Your task to perform on an android device: What's the weather like in Tokyo? Image 0: 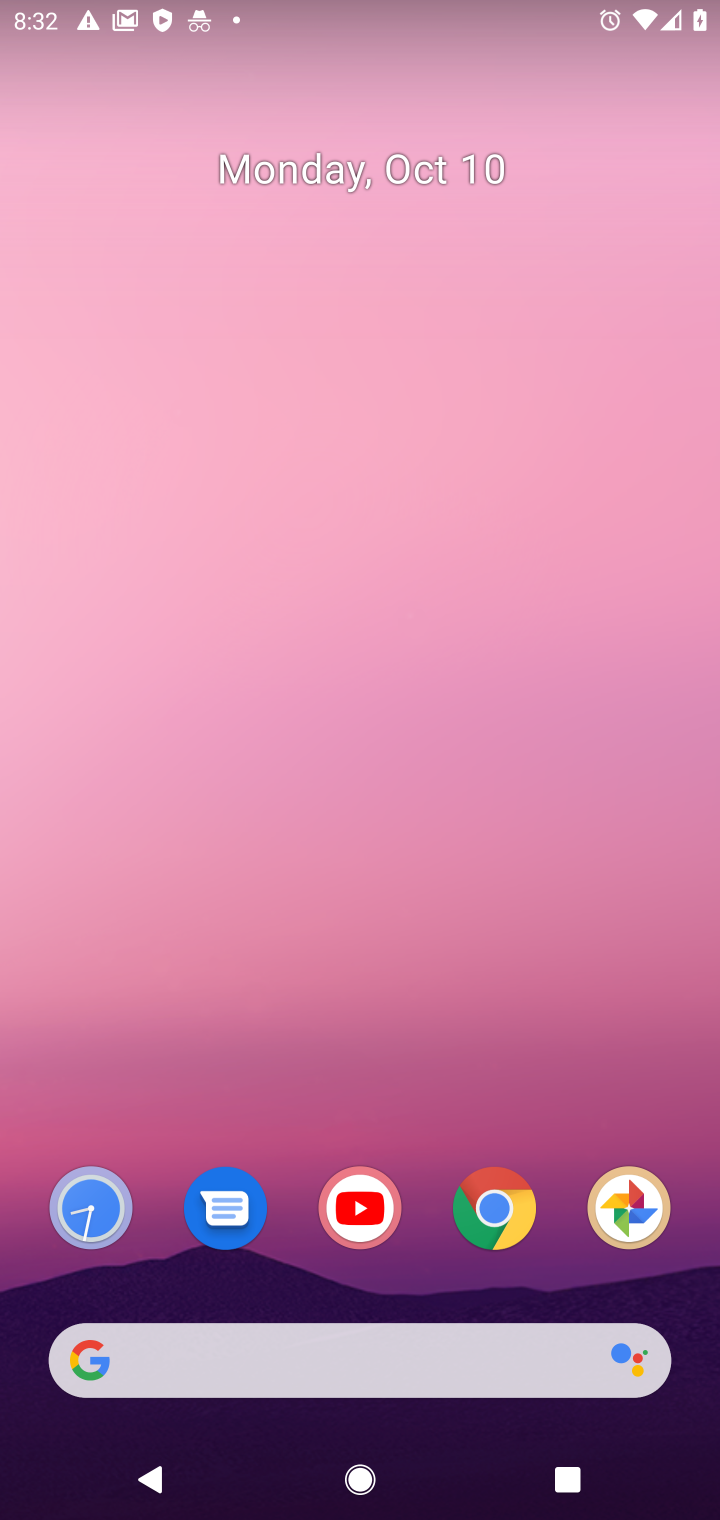
Step 0: press home button
Your task to perform on an android device: What's the weather like in Tokyo? Image 1: 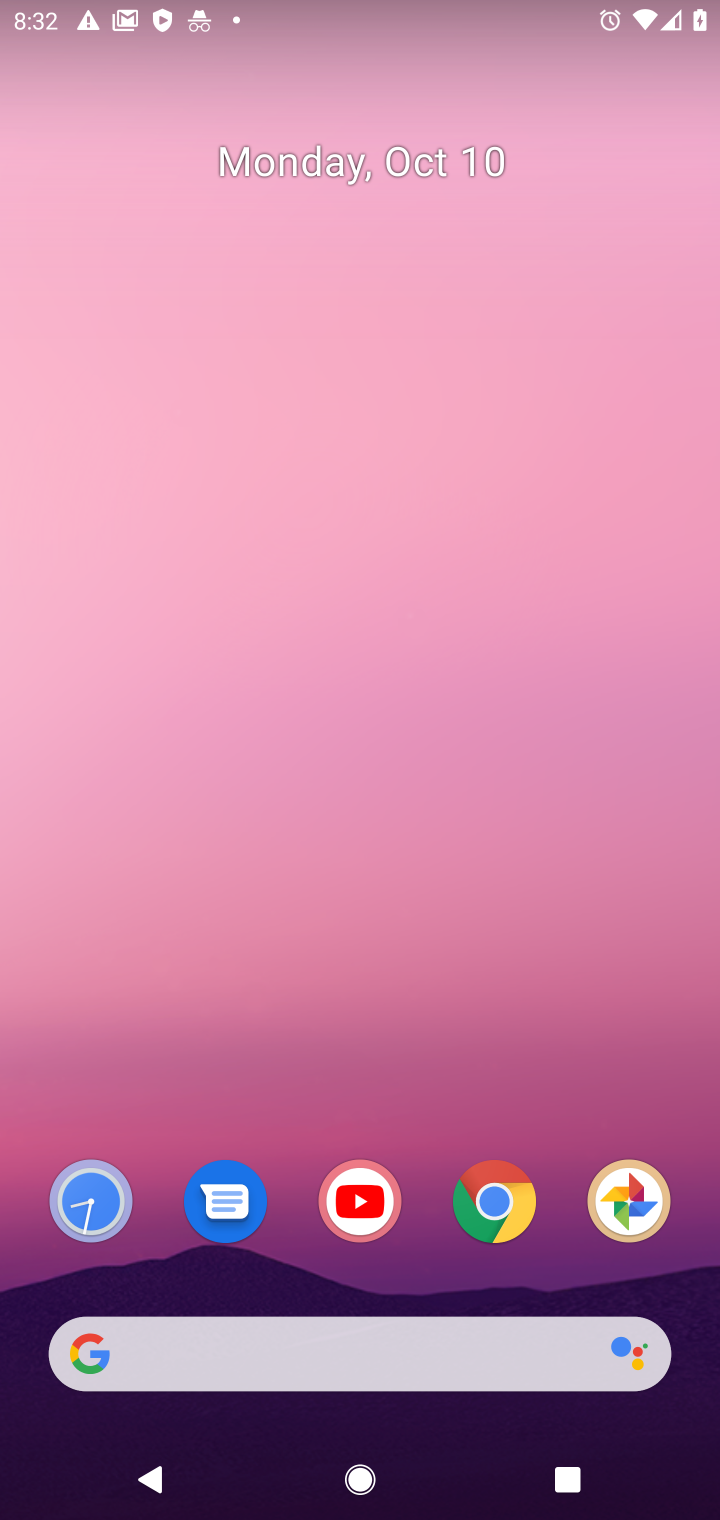
Step 1: drag from (418, 734) to (482, 11)
Your task to perform on an android device: What's the weather like in Tokyo? Image 2: 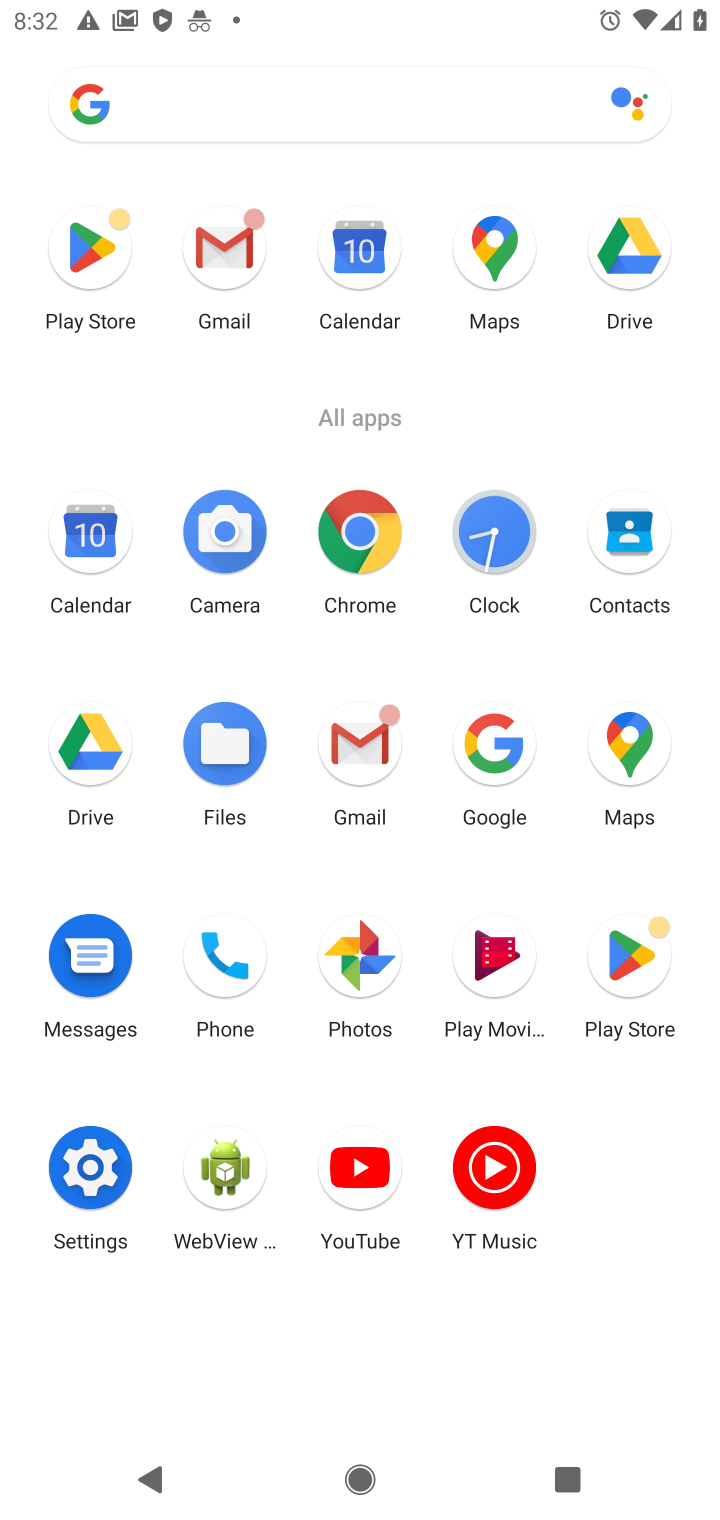
Step 2: click (643, 953)
Your task to perform on an android device: What's the weather like in Tokyo? Image 3: 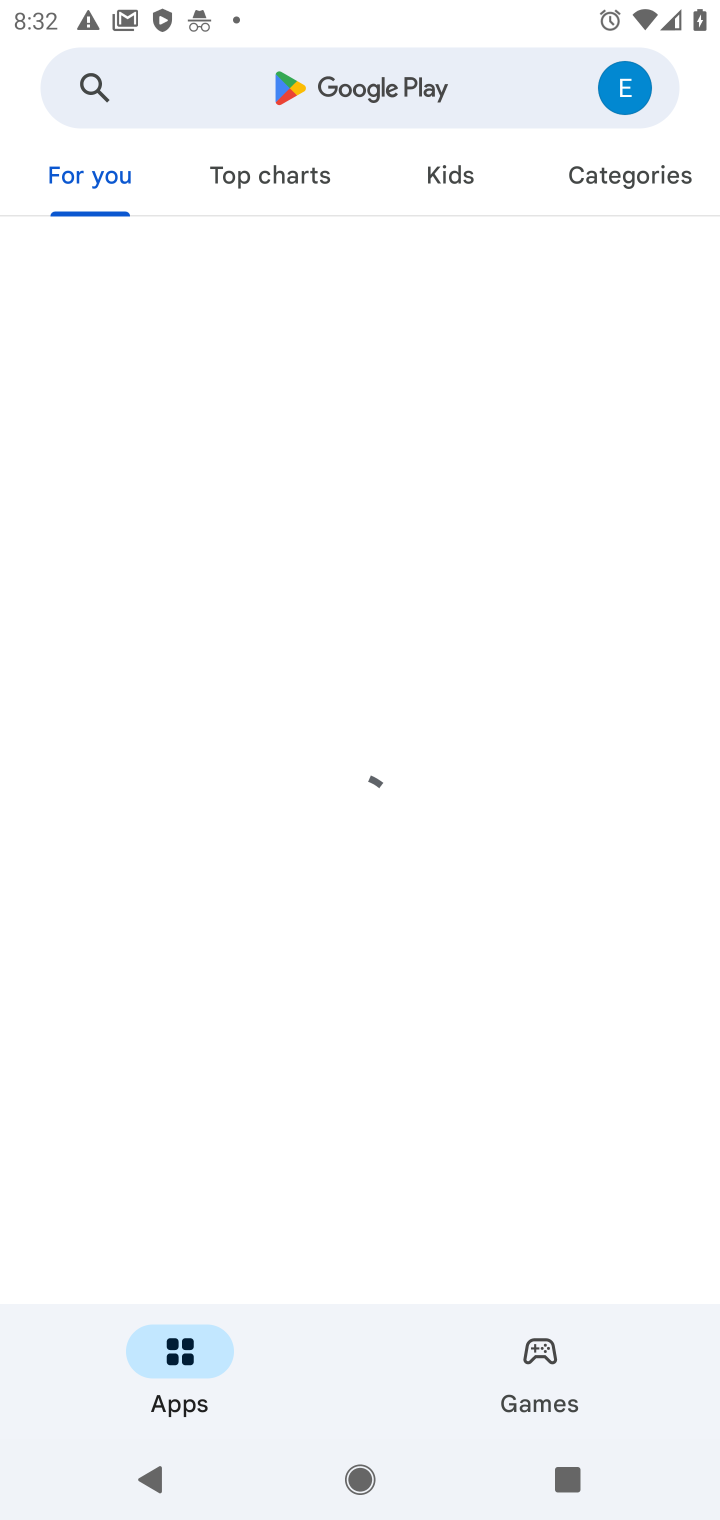
Step 3: click (373, 104)
Your task to perform on an android device: What's the weather like in Tokyo? Image 4: 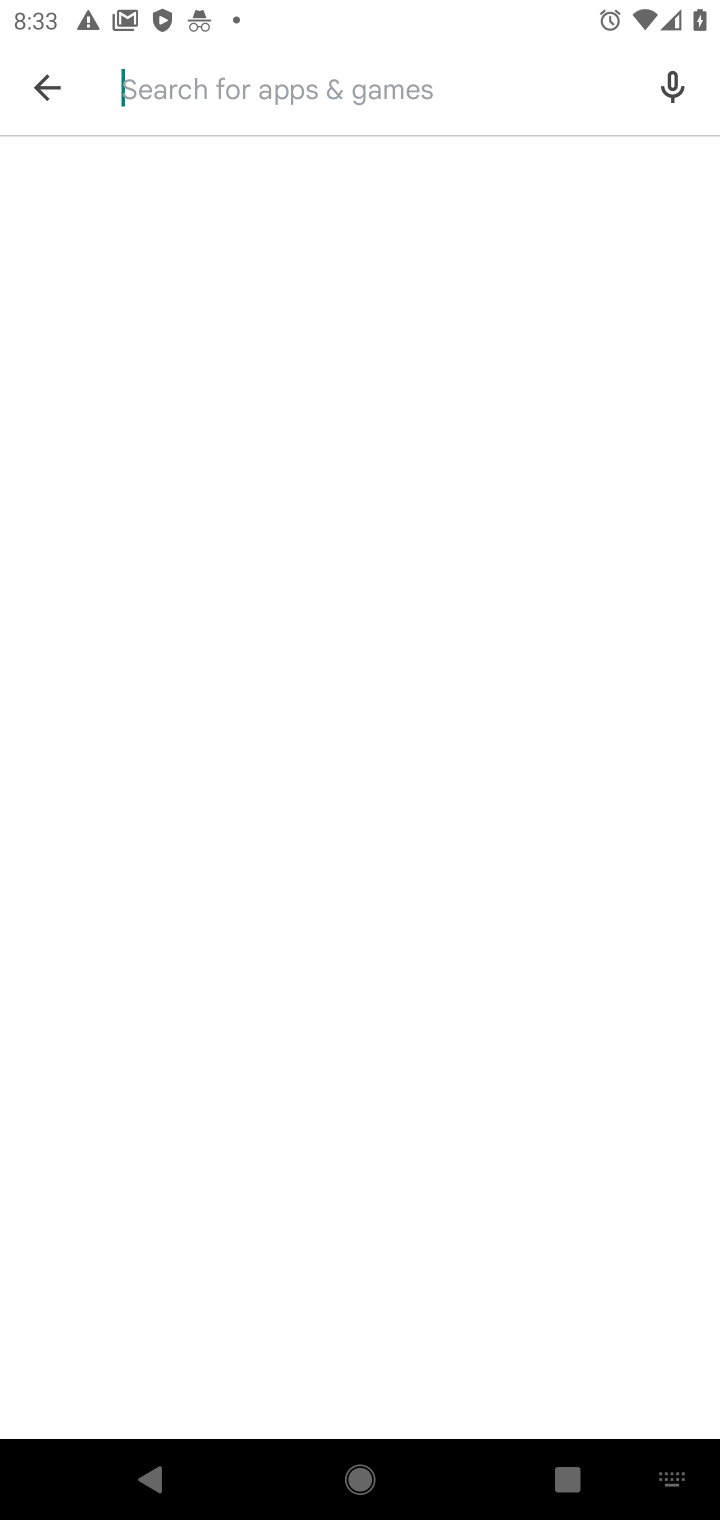
Step 4: type "calculator"
Your task to perform on an android device: What's the weather like in Tokyo? Image 5: 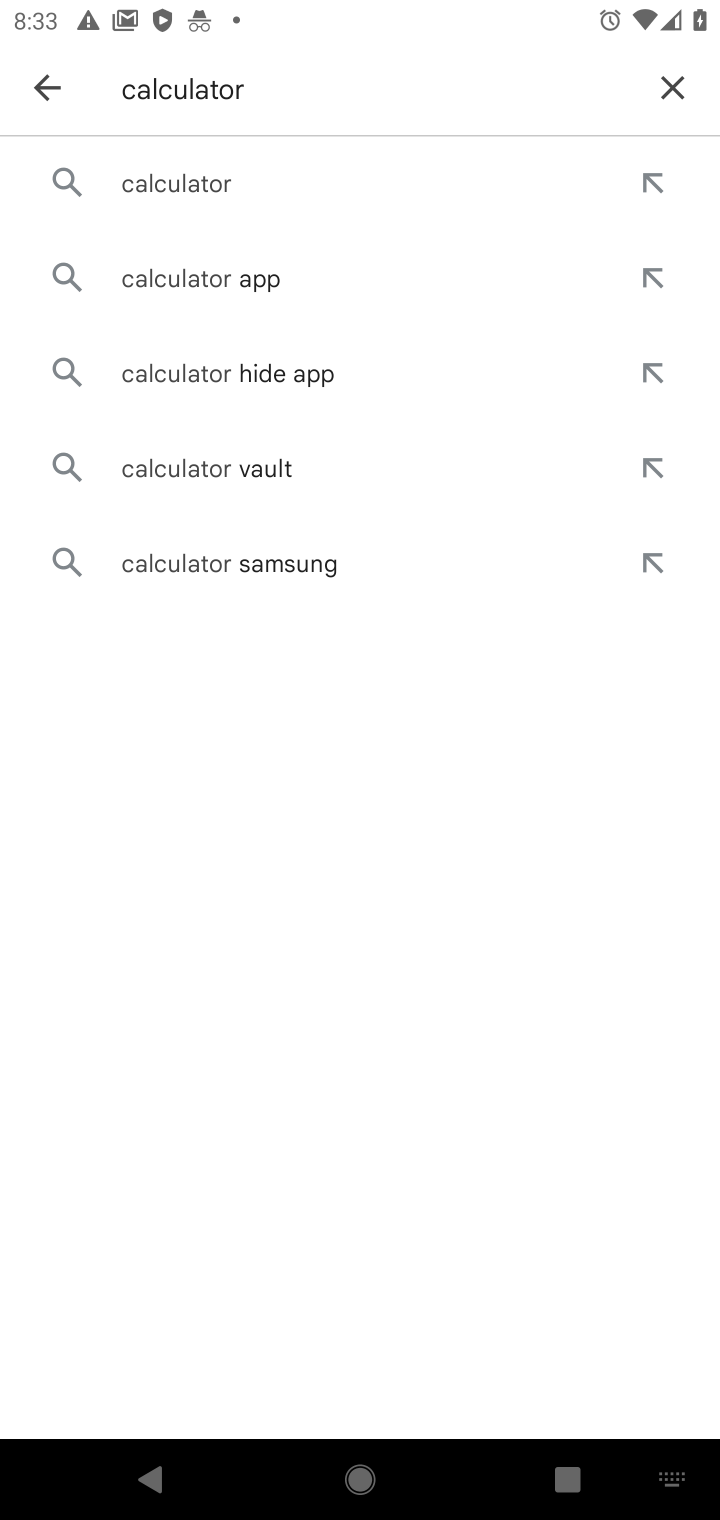
Step 5: type ""
Your task to perform on an android device: What's the weather like in Tokyo? Image 6: 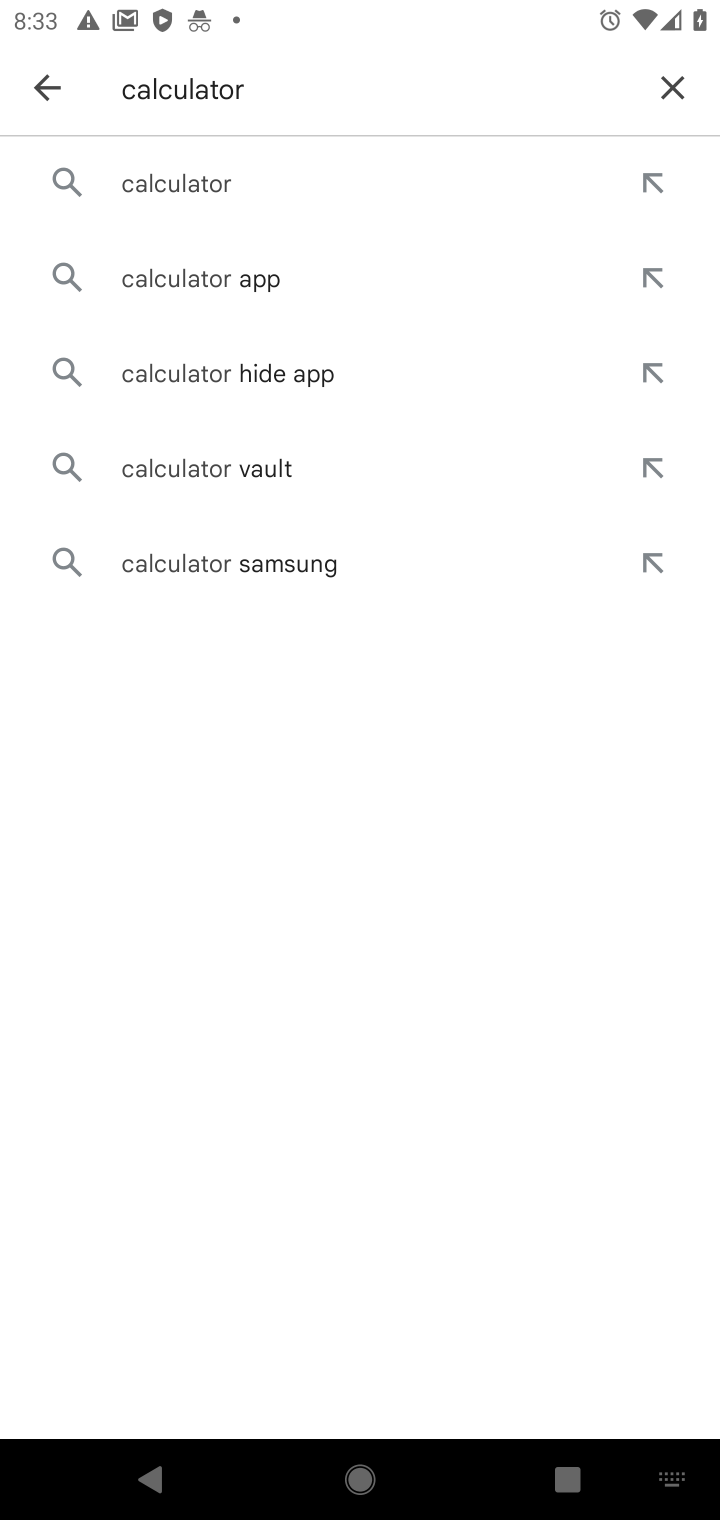
Step 6: press home button
Your task to perform on an android device: What's the weather like in Tokyo? Image 7: 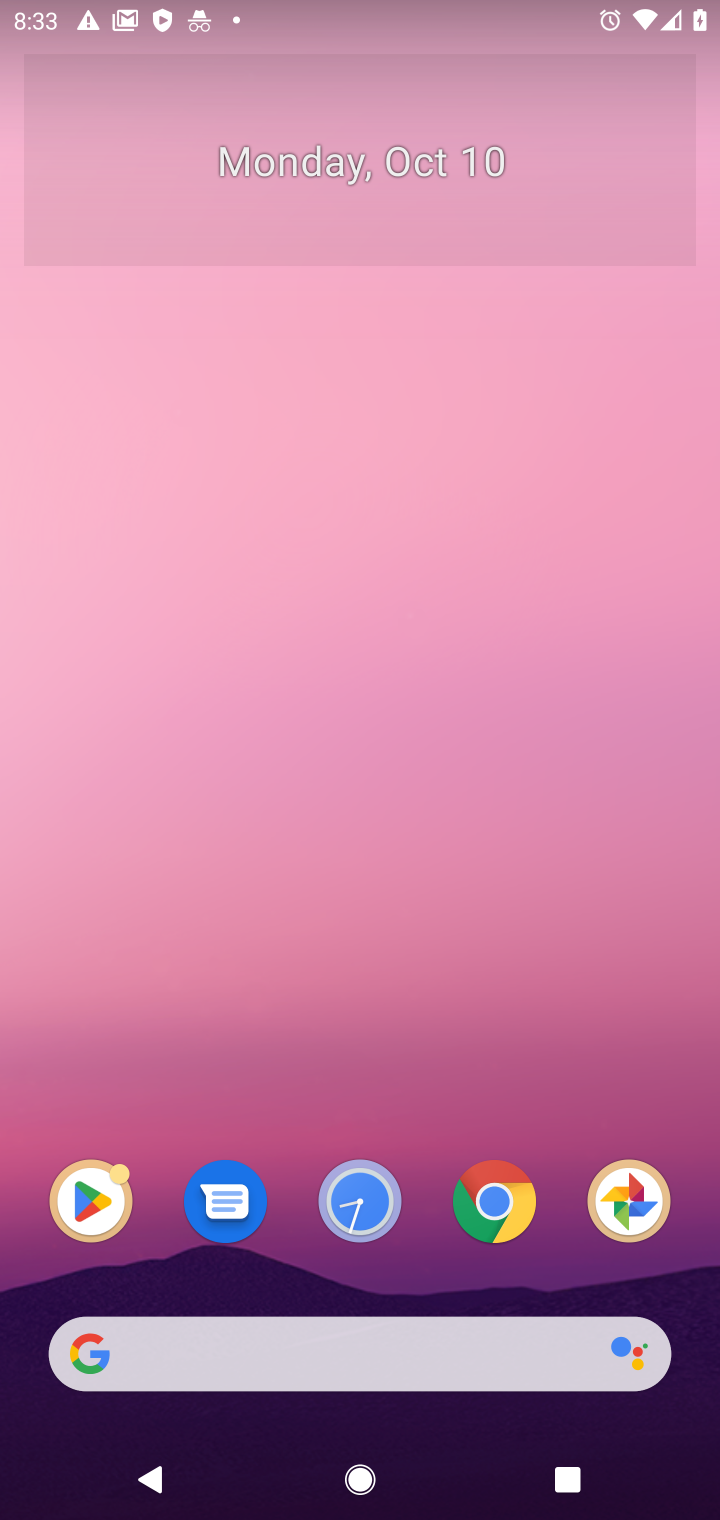
Step 7: click (484, 1188)
Your task to perform on an android device: What's the weather like in Tokyo? Image 8: 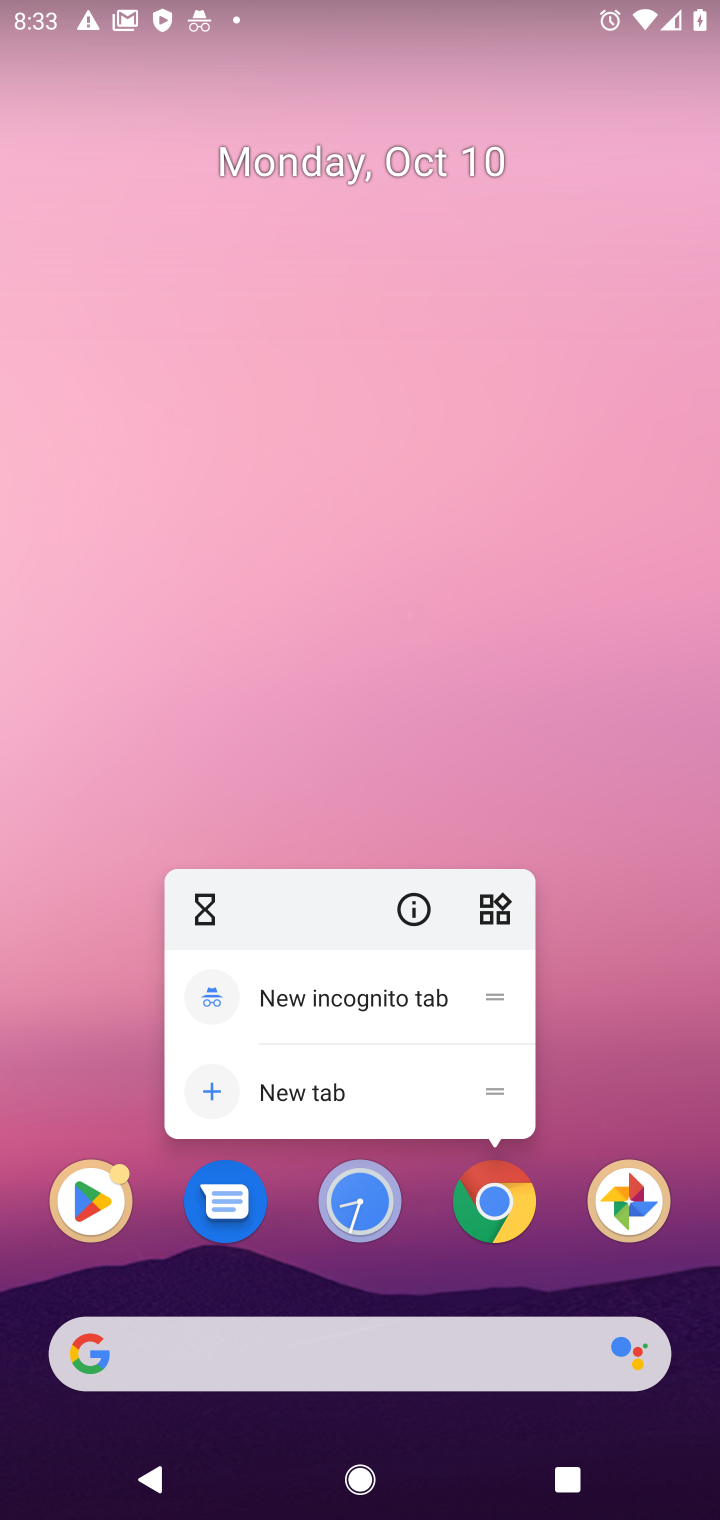
Step 8: click (482, 1244)
Your task to perform on an android device: What's the weather like in Tokyo? Image 9: 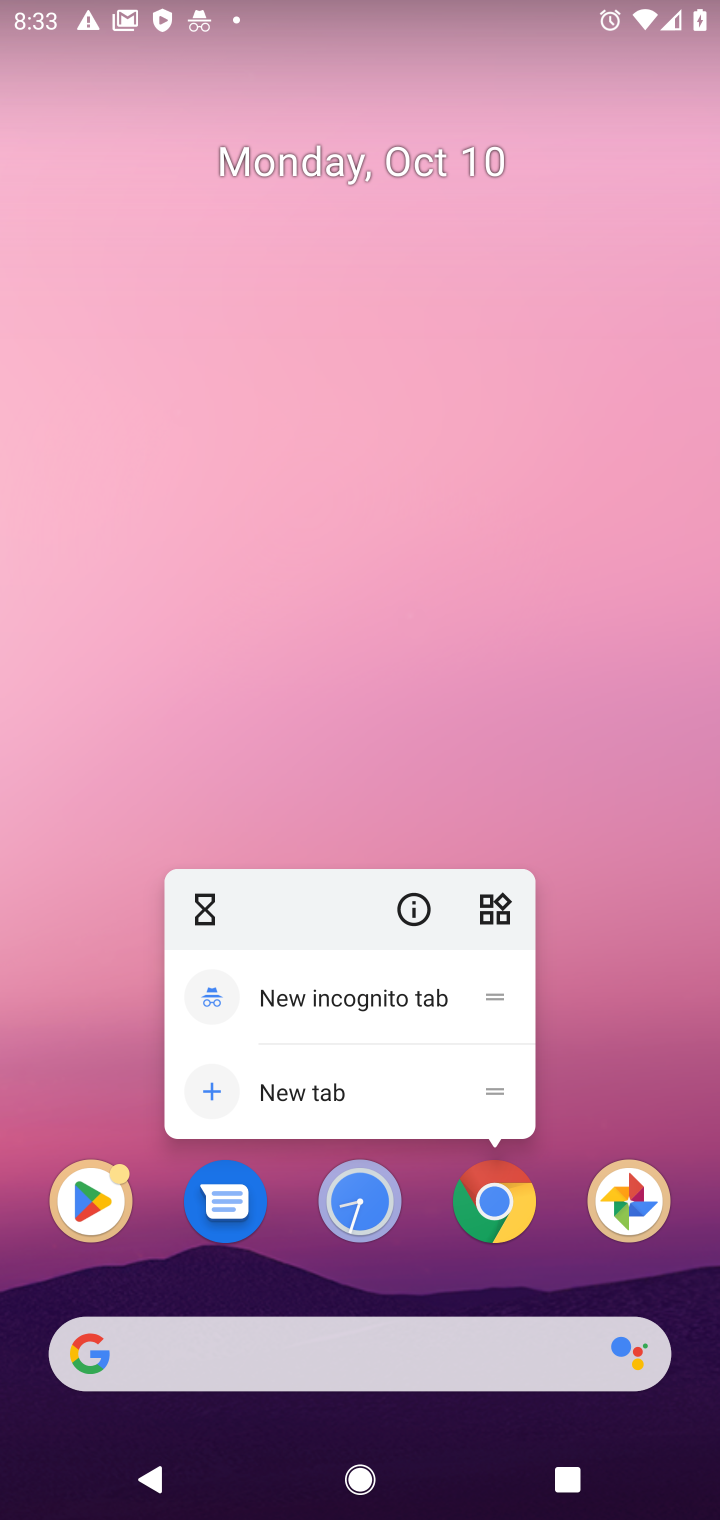
Step 9: click (364, 1365)
Your task to perform on an android device: What's the weather like in Tokyo? Image 10: 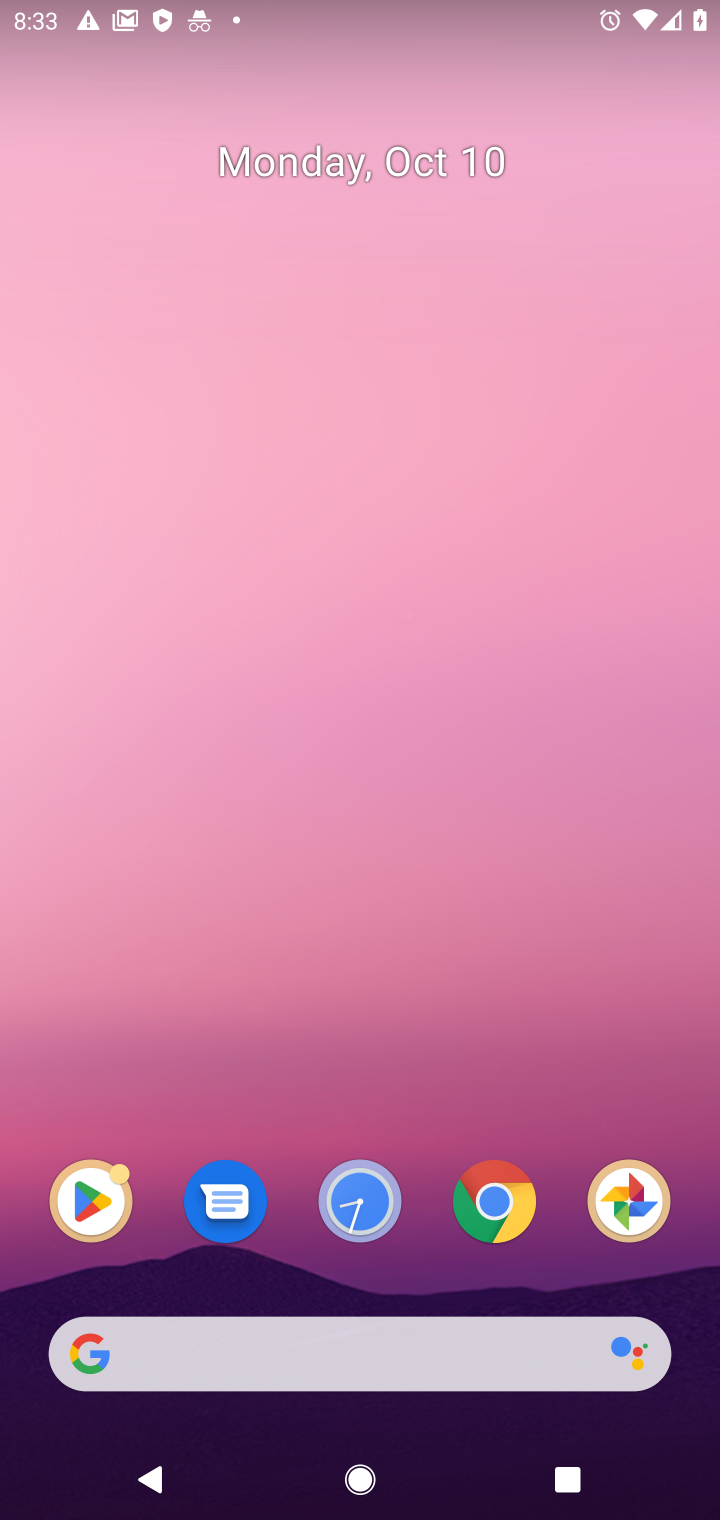
Step 10: click (504, 1204)
Your task to perform on an android device: What's the weather like in Tokyo? Image 11: 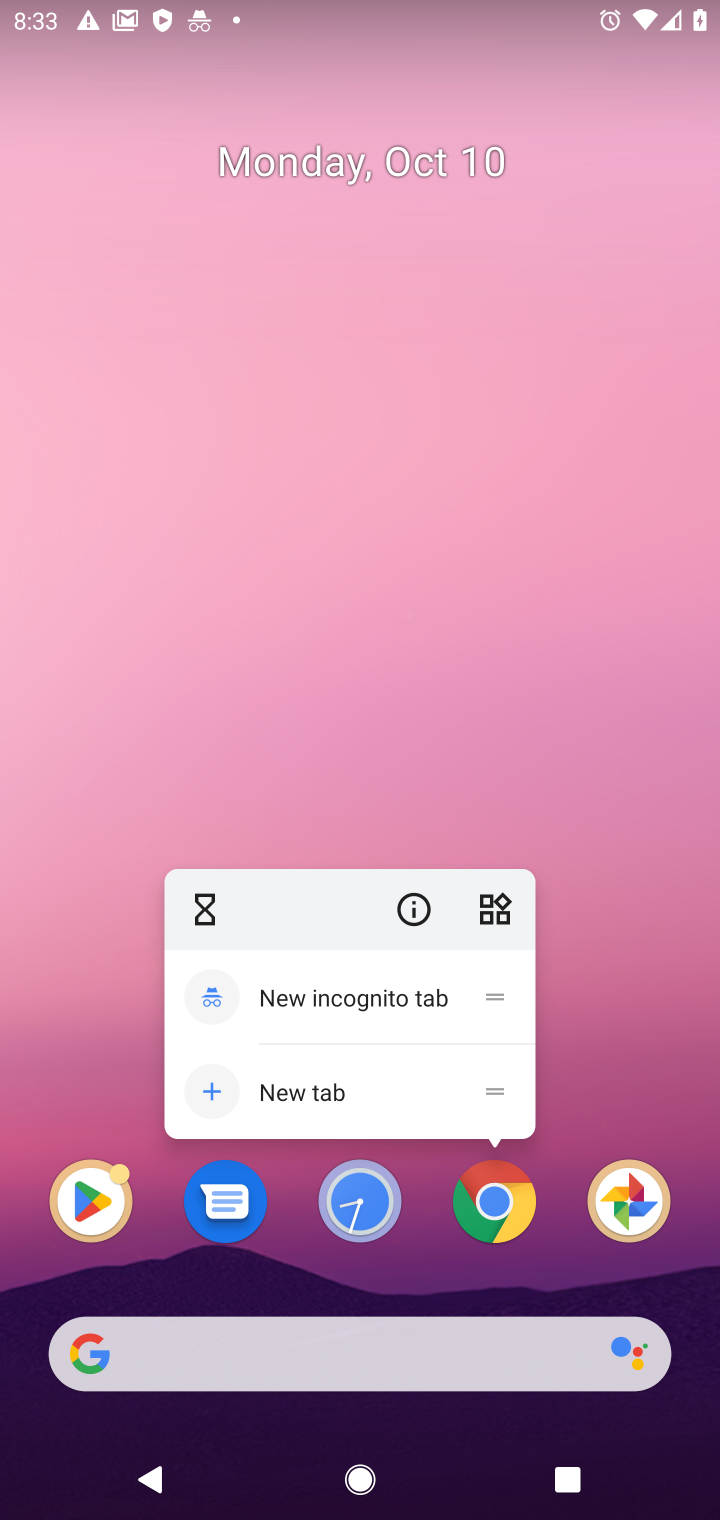
Step 11: click (314, 1085)
Your task to perform on an android device: What's the weather like in Tokyo? Image 12: 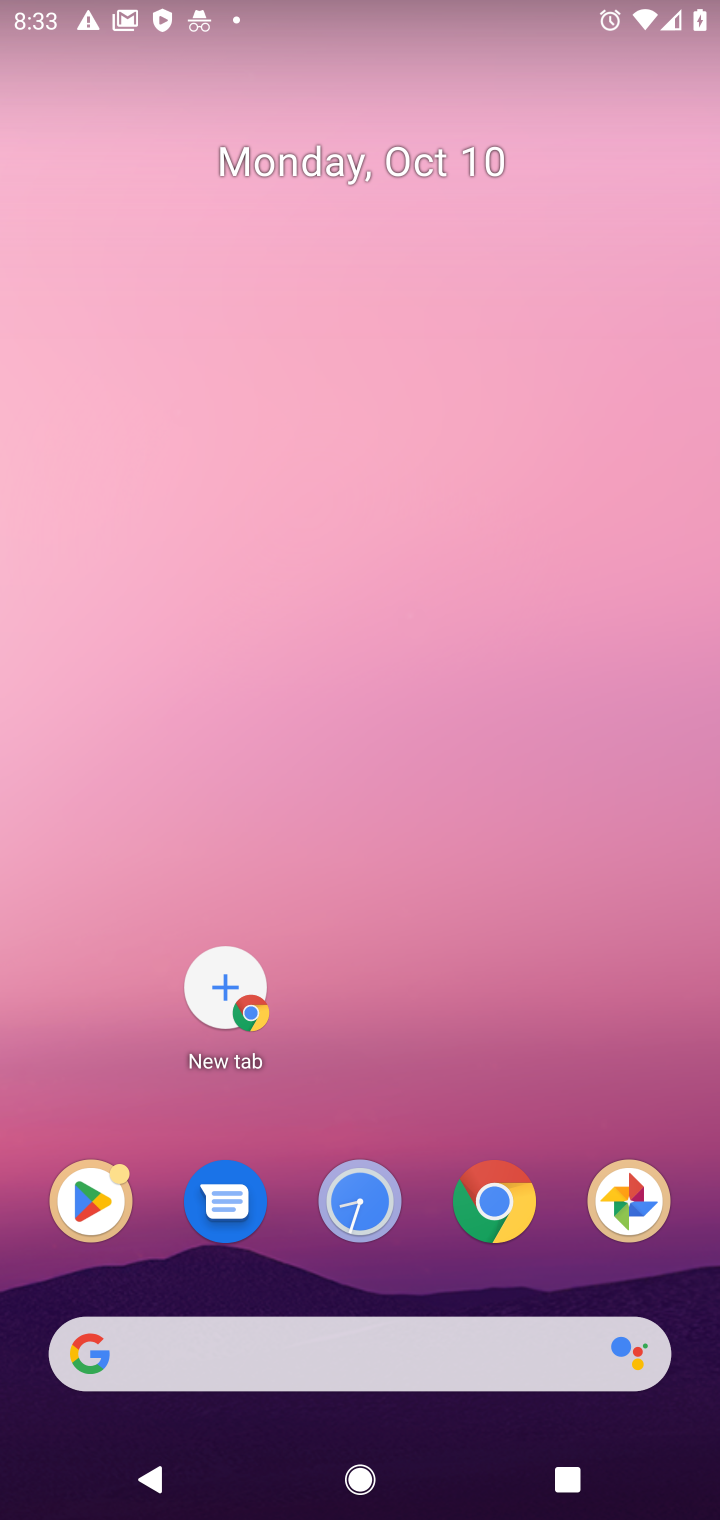
Step 12: click (250, 1018)
Your task to perform on an android device: What's the weather like in Tokyo? Image 13: 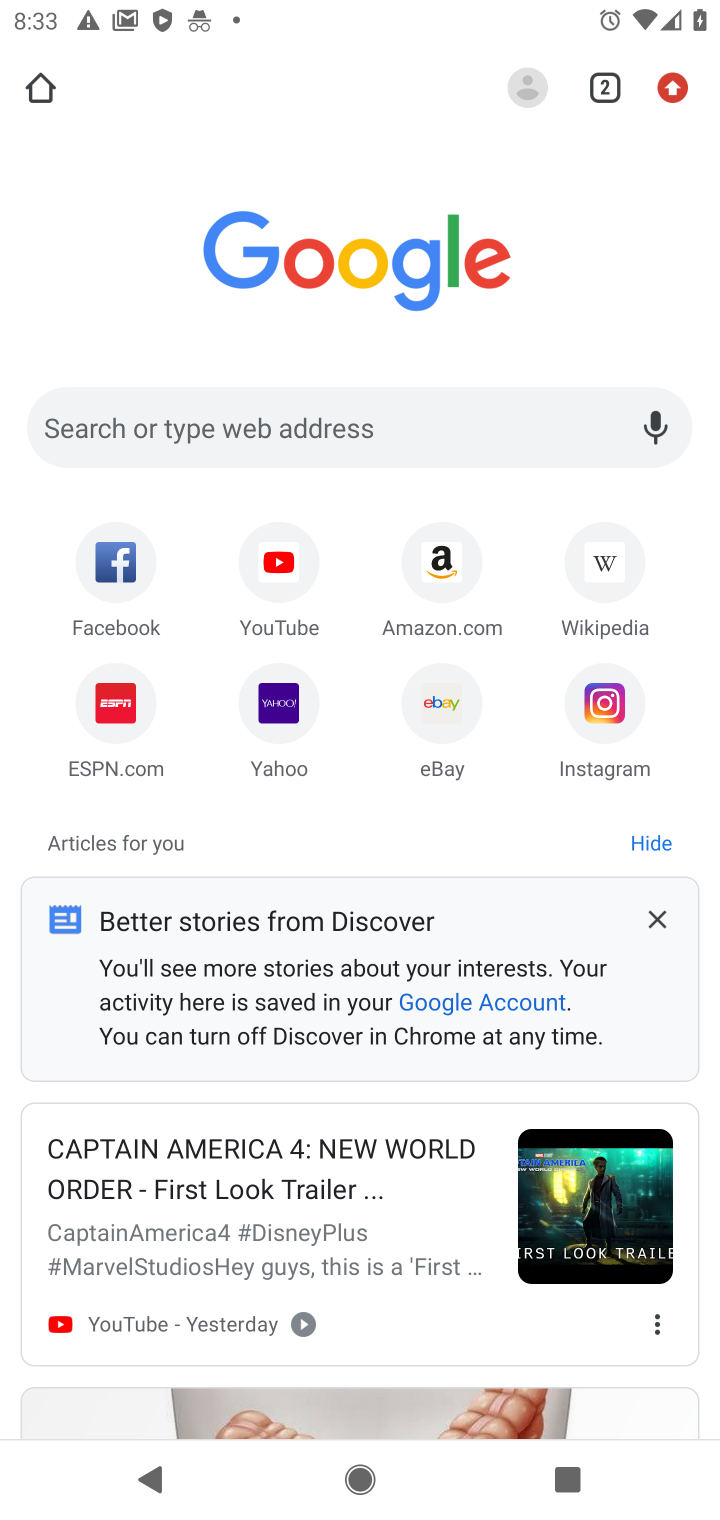
Step 13: click (350, 422)
Your task to perform on an android device: What's the weather like in Tokyo? Image 14: 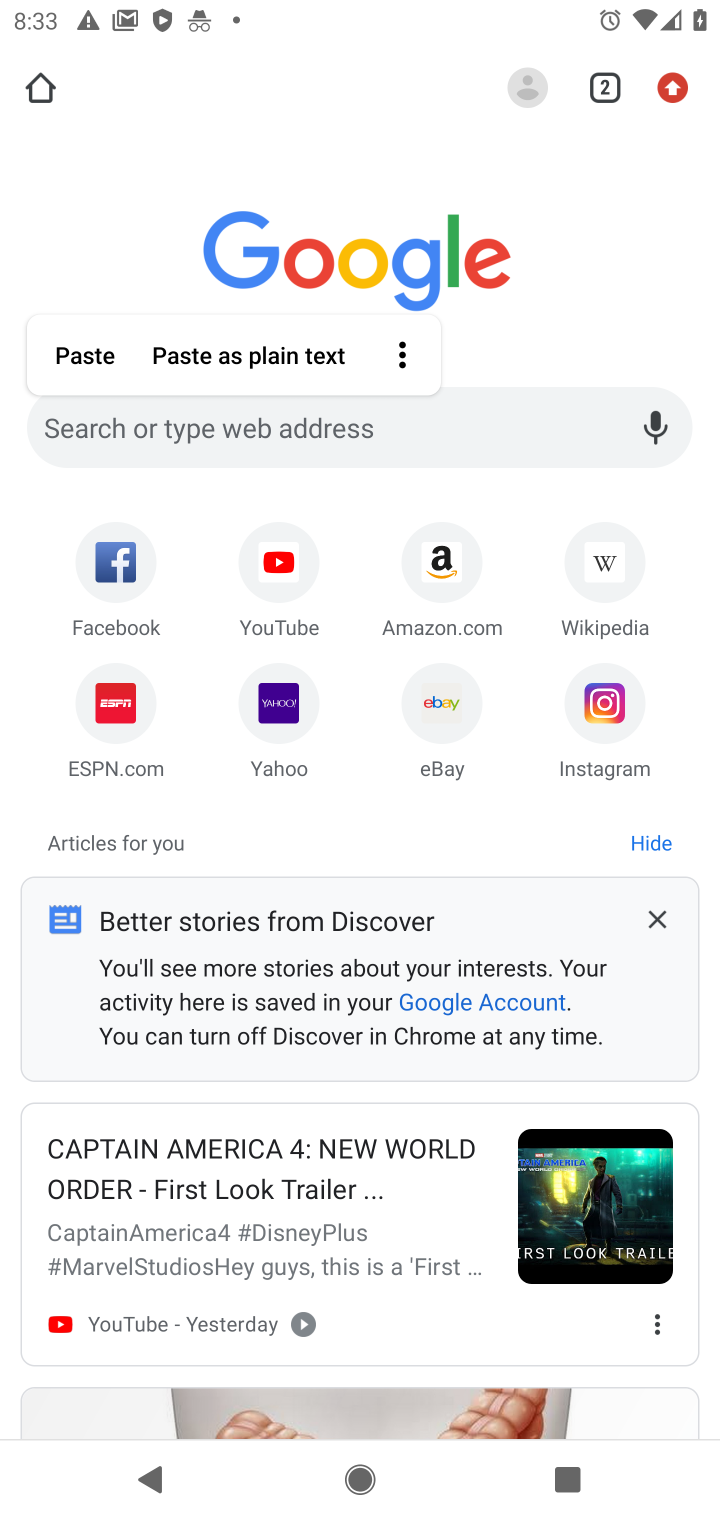
Step 14: click (440, 449)
Your task to perform on an android device: What's the weather like in Tokyo? Image 15: 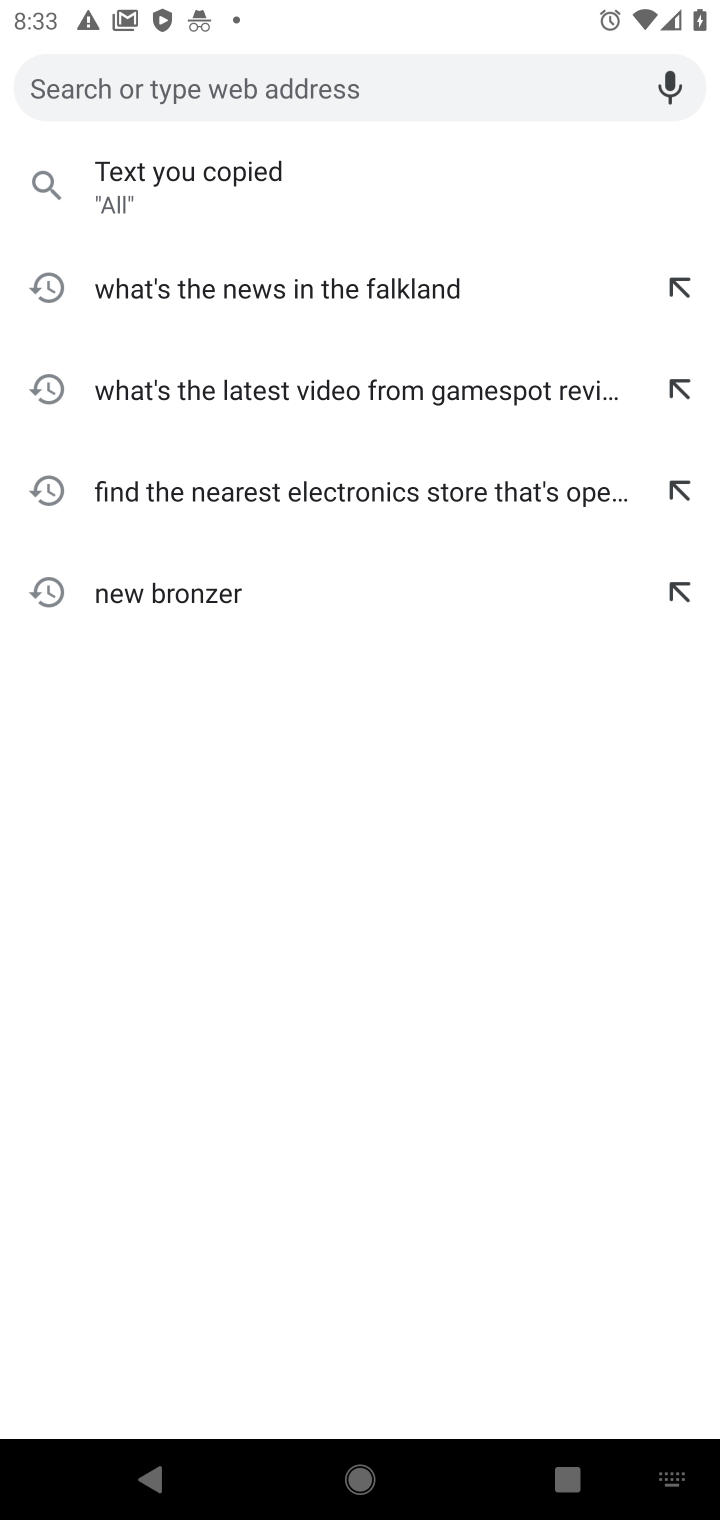
Step 15: type "What's the weather like in Tokyo?"
Your task to perform on an android device: What's the weather like in Tokyo? Image 16: 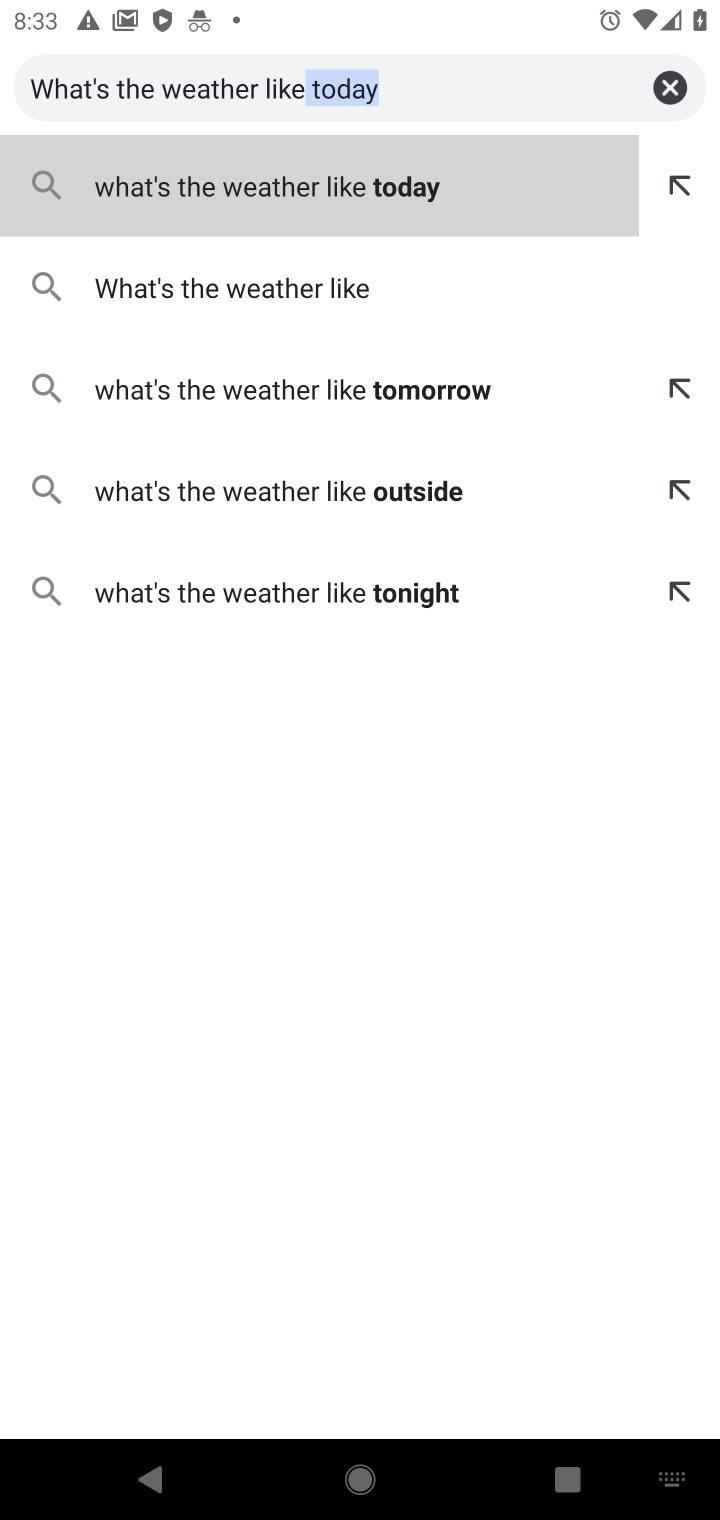
Step 16: type ""
Your task to perform on an android device: What's the weather like in Tokyo? Image 17: 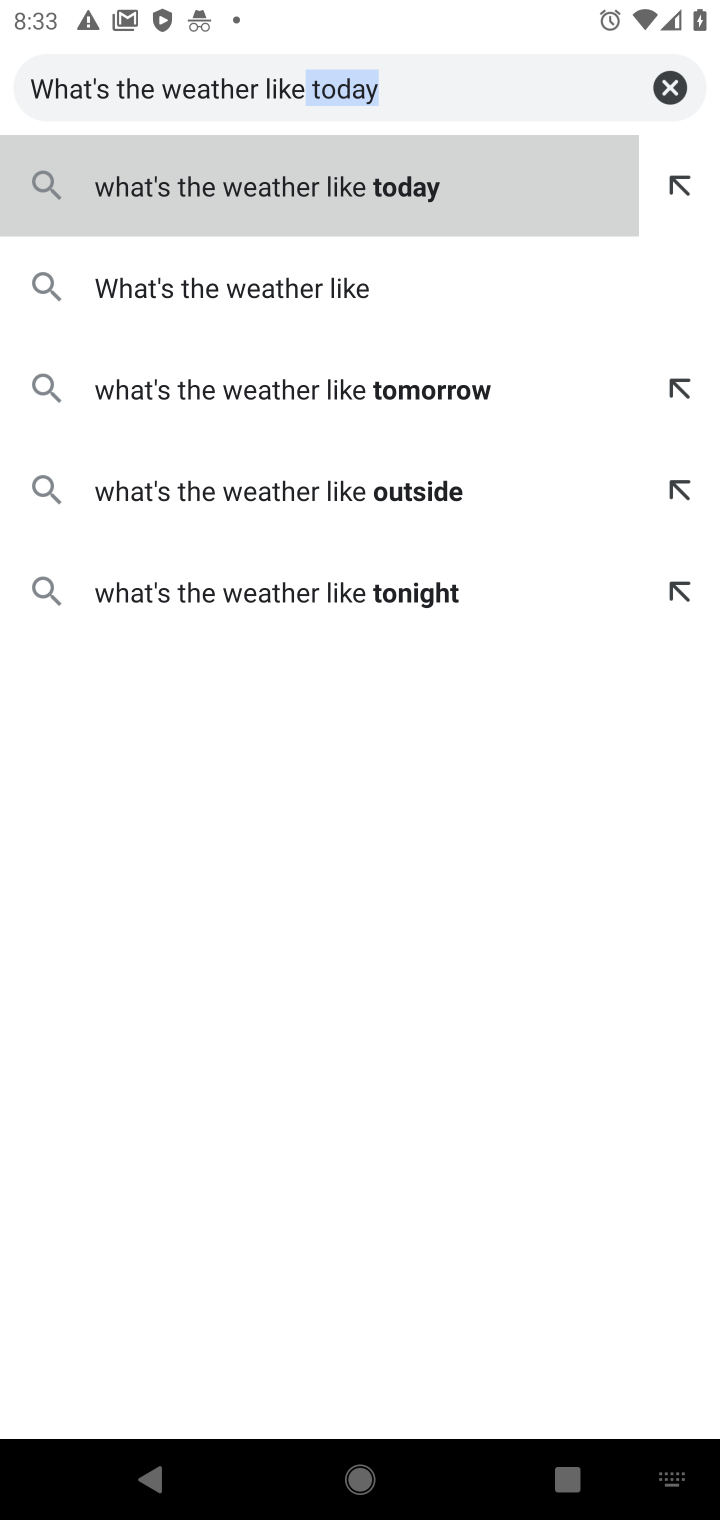
Step 17: press enter
Your task to perform on an android device: What's the weather like in Tokyo? Image 18: 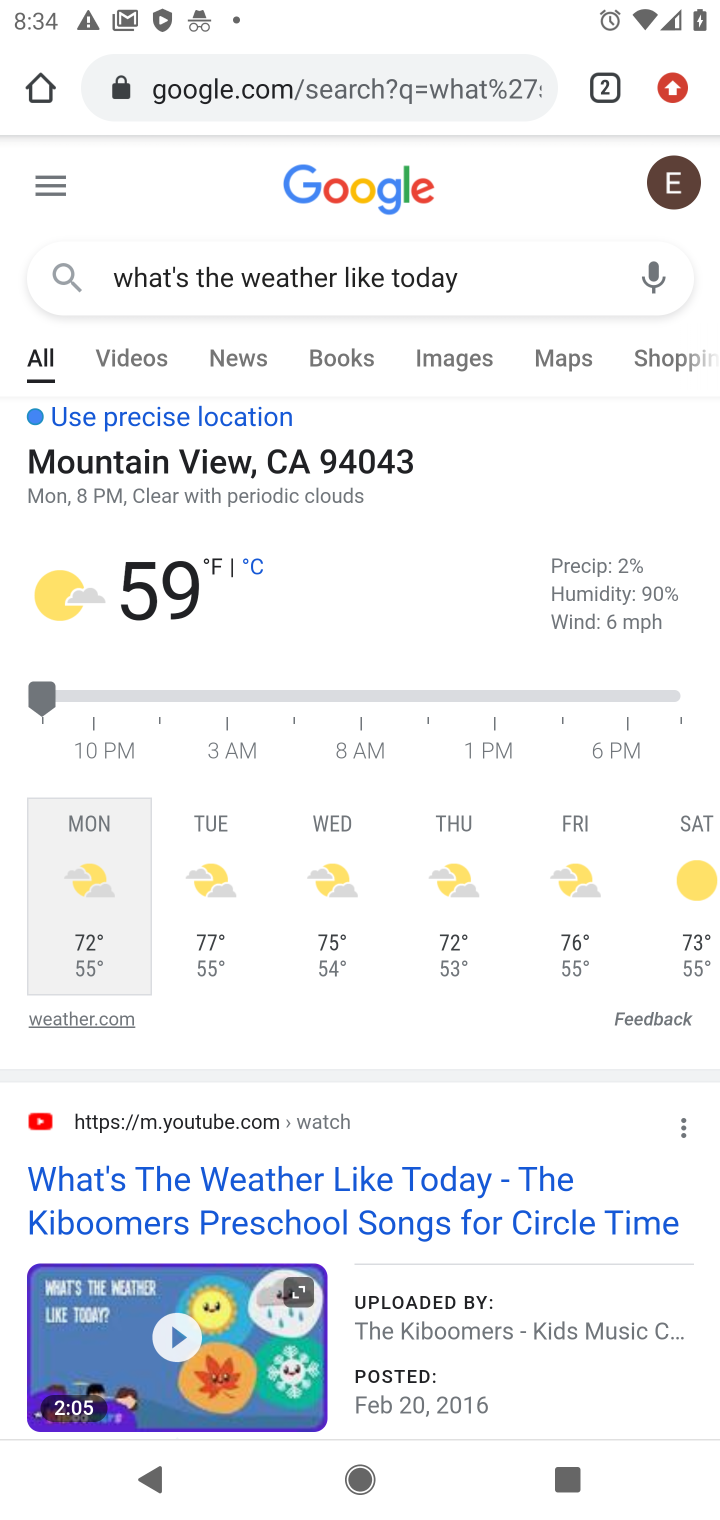
Step 18: drag from (432, 190) to (454, 101)
Your task to perform on an android device: What's the weather like in Tokyo? Image 19: 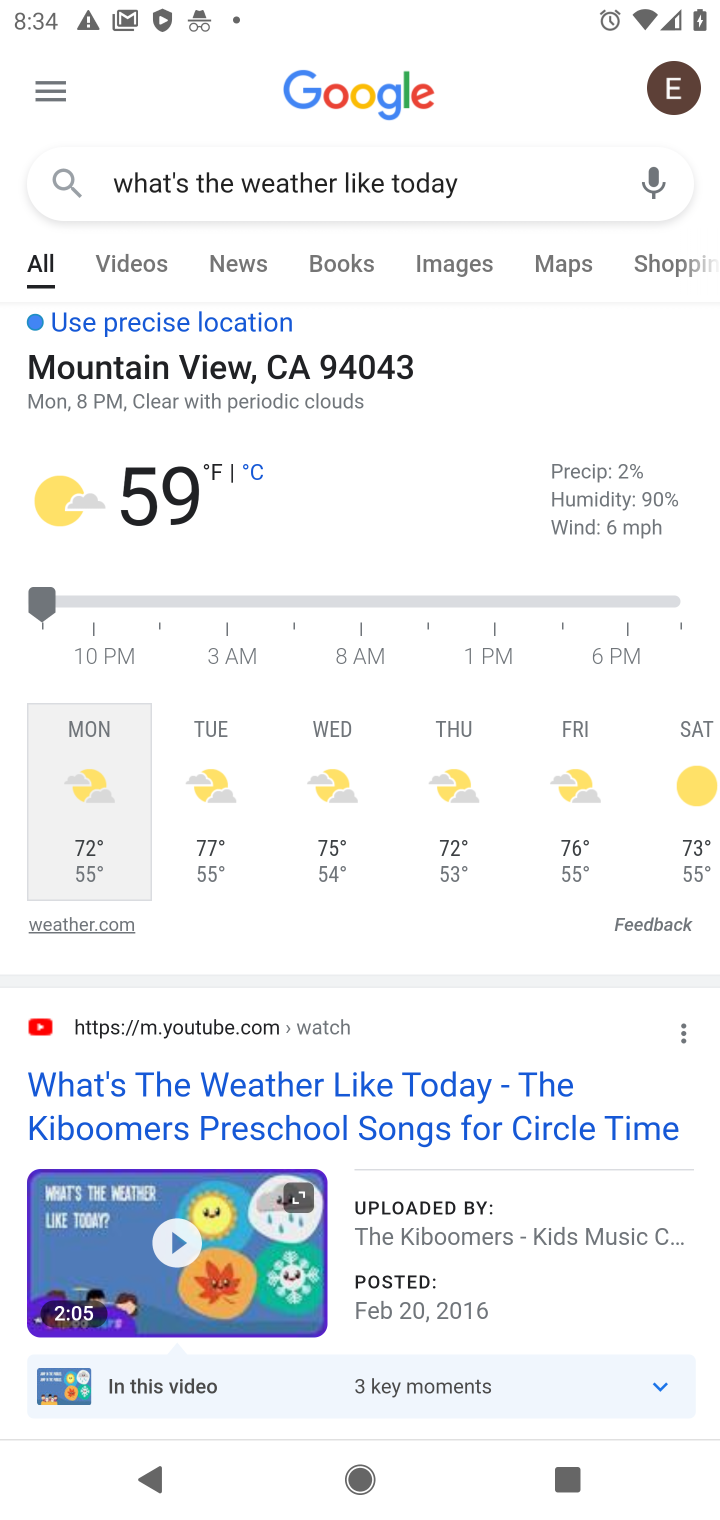
Step 19: drag from (293, 1218) to (270, 287)
Your task to perform on an android device: What's the weather like in Tokyo? Image 20: 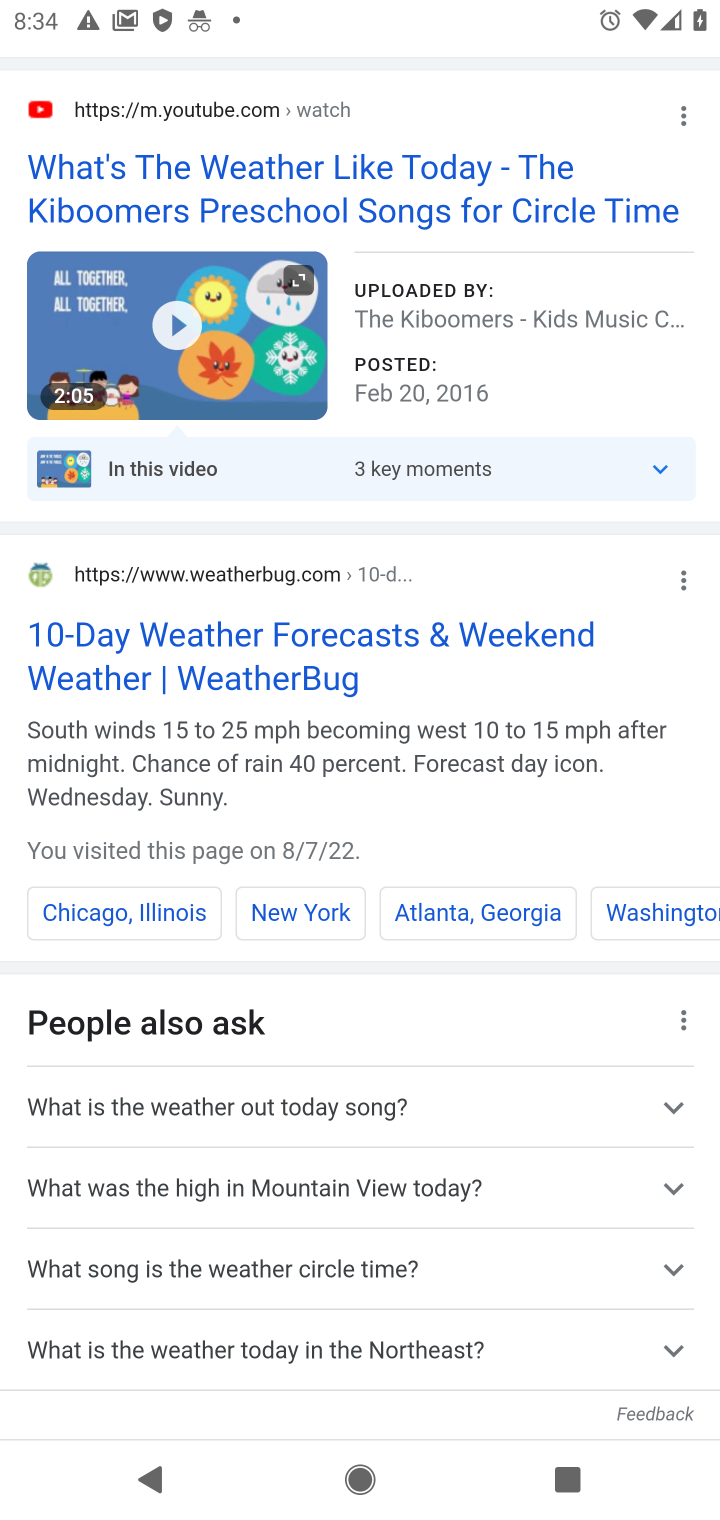
Step 20: drag from (287, 763) to (411, 121)
Your task to perform on an android device: What's the weather like in Tokyo? Image 21: 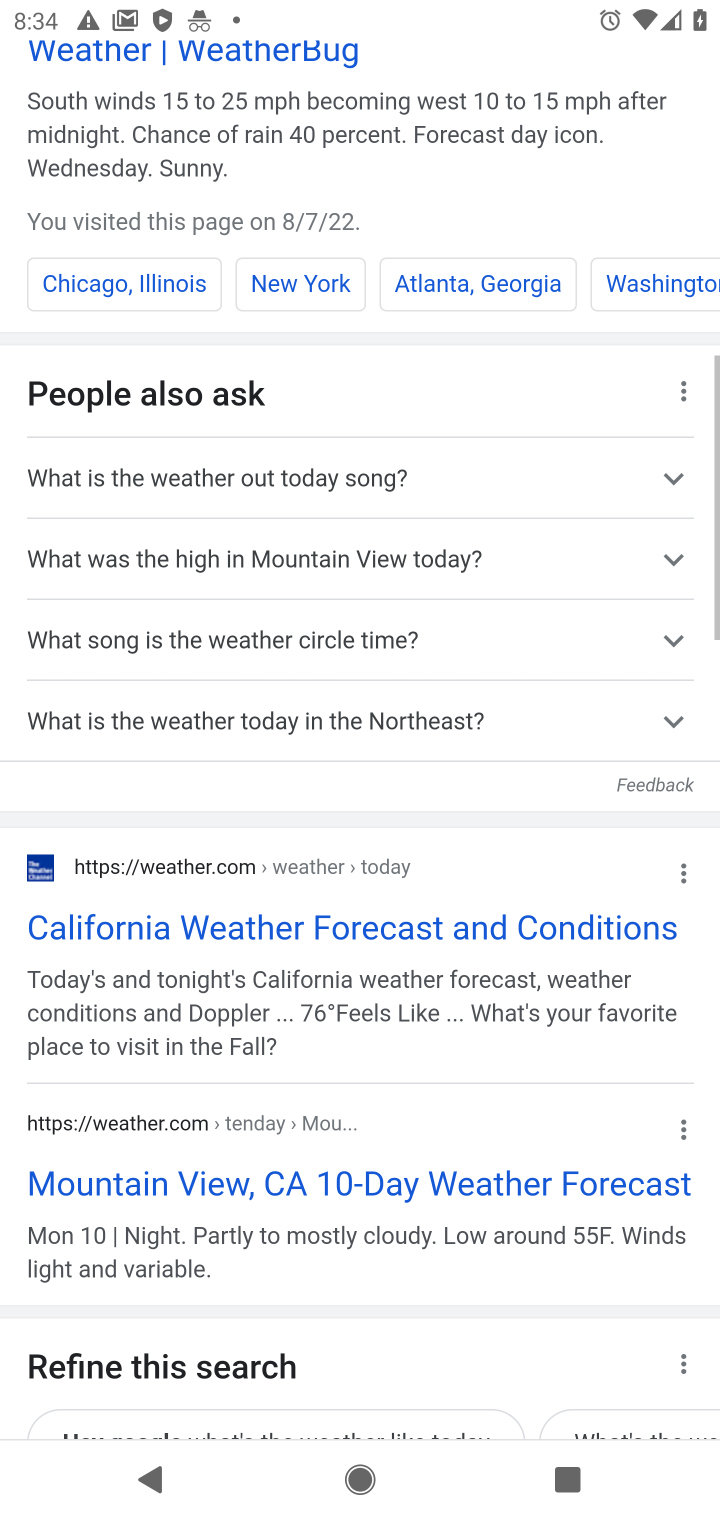
Step 21: drag from (439, 1181) to (454, 236)
Your task to perform on an android device: What's the weather like in Tokyo? Image 22: 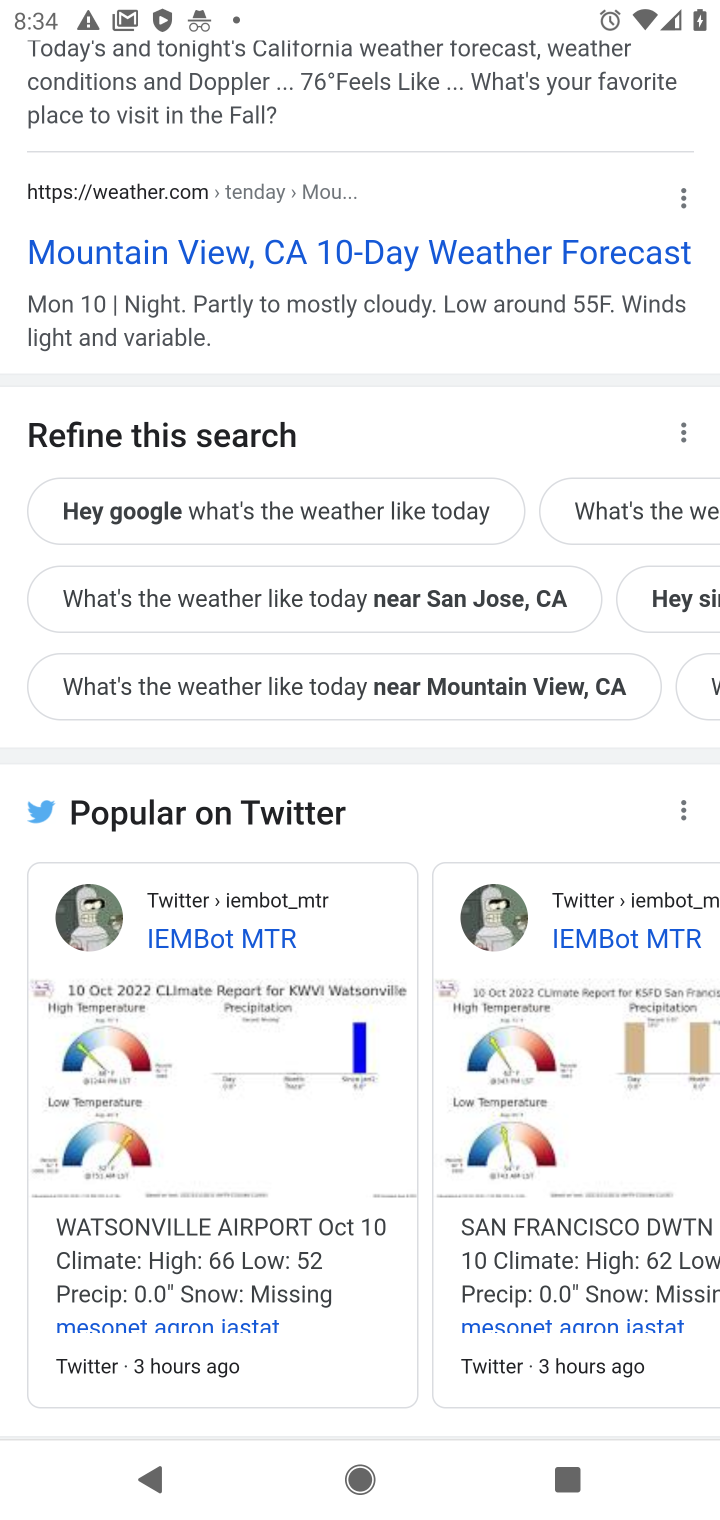
Step 22: drag from (524, 1140) to (498, 403)
Your task to perform on an android device: What's the weather like in Tokyo? Image 23: 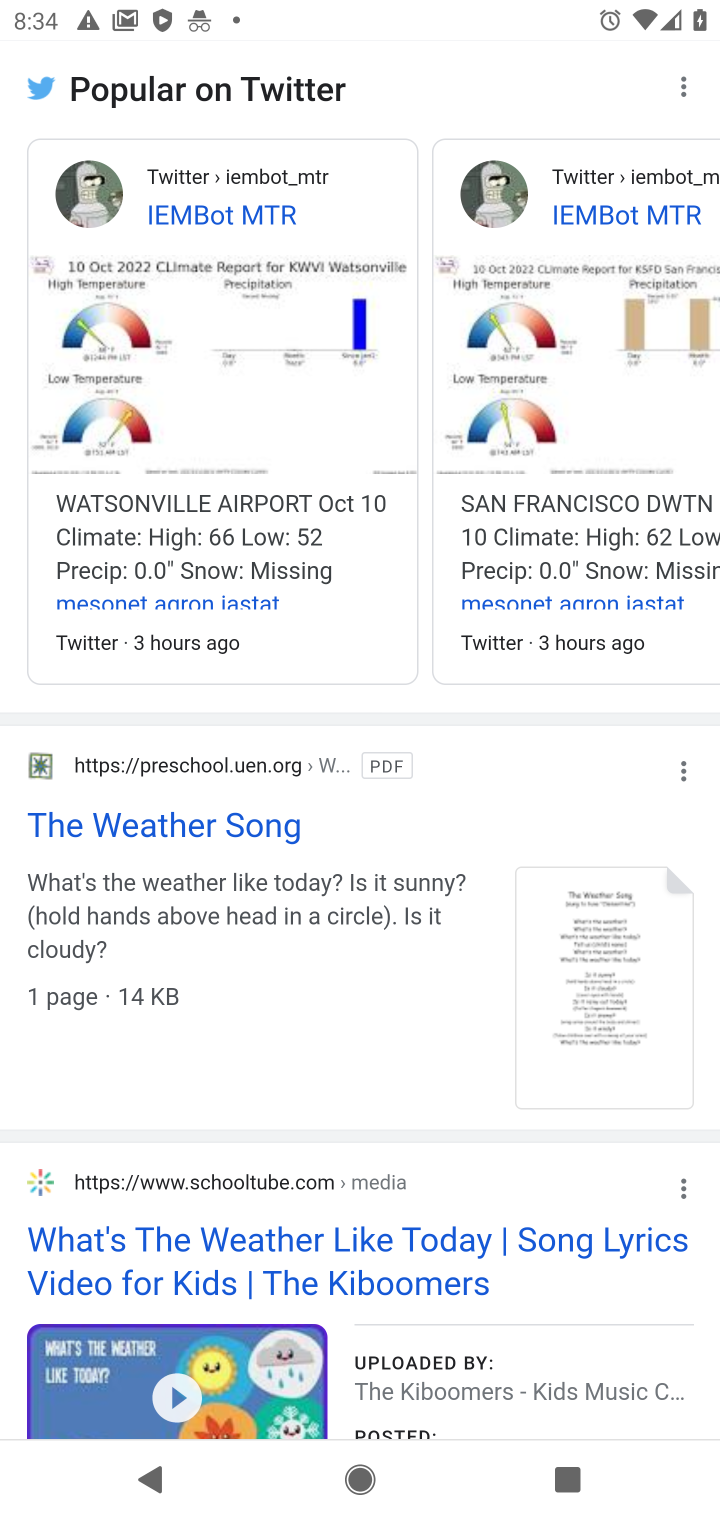
Step 23: drag from (382, 329) to (433, 1390)
Your task to perform on an android device: What's the weather like in Tokyo? Image 24: 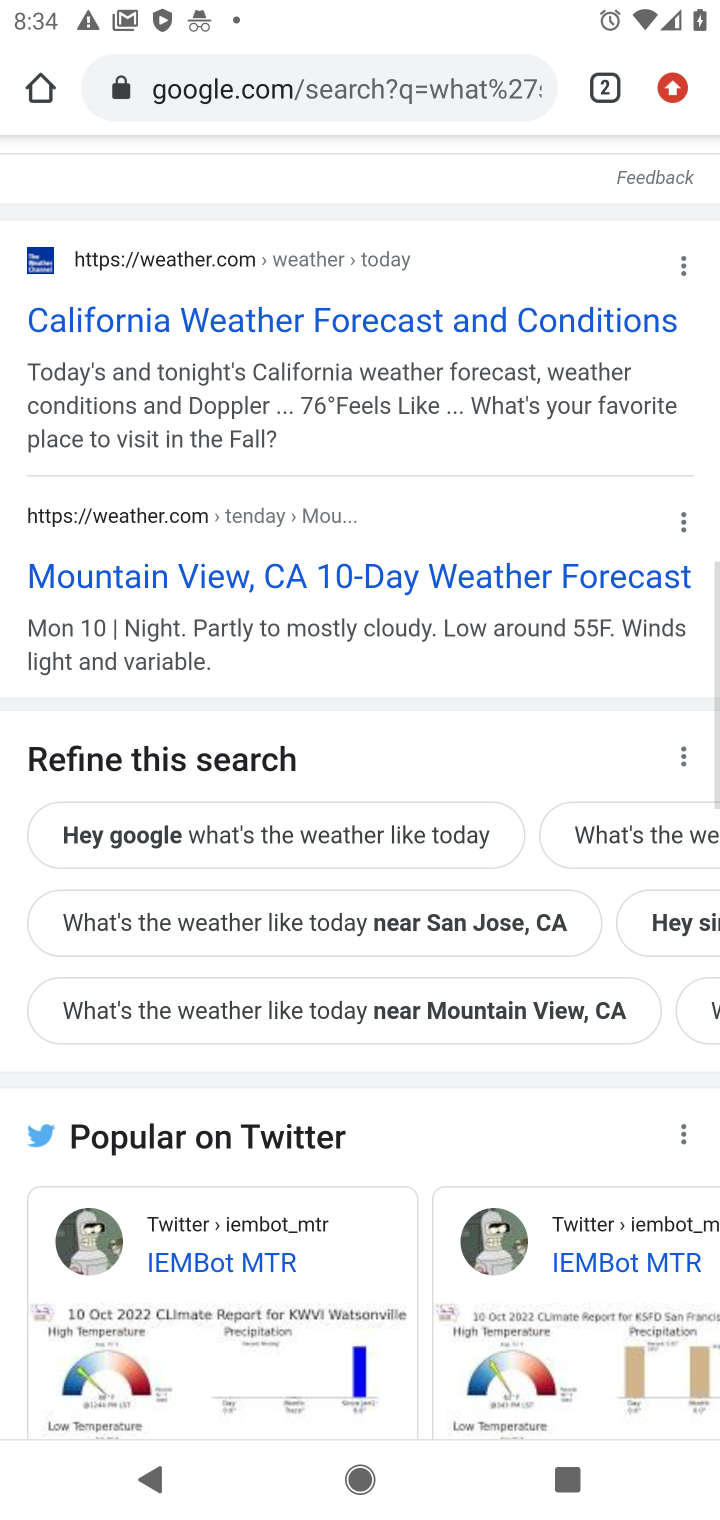
Step 24: drag from (344, 777) to (342, 1239)
Your task to perform on an android device: What's the weather like in Tokyo? Image 25: 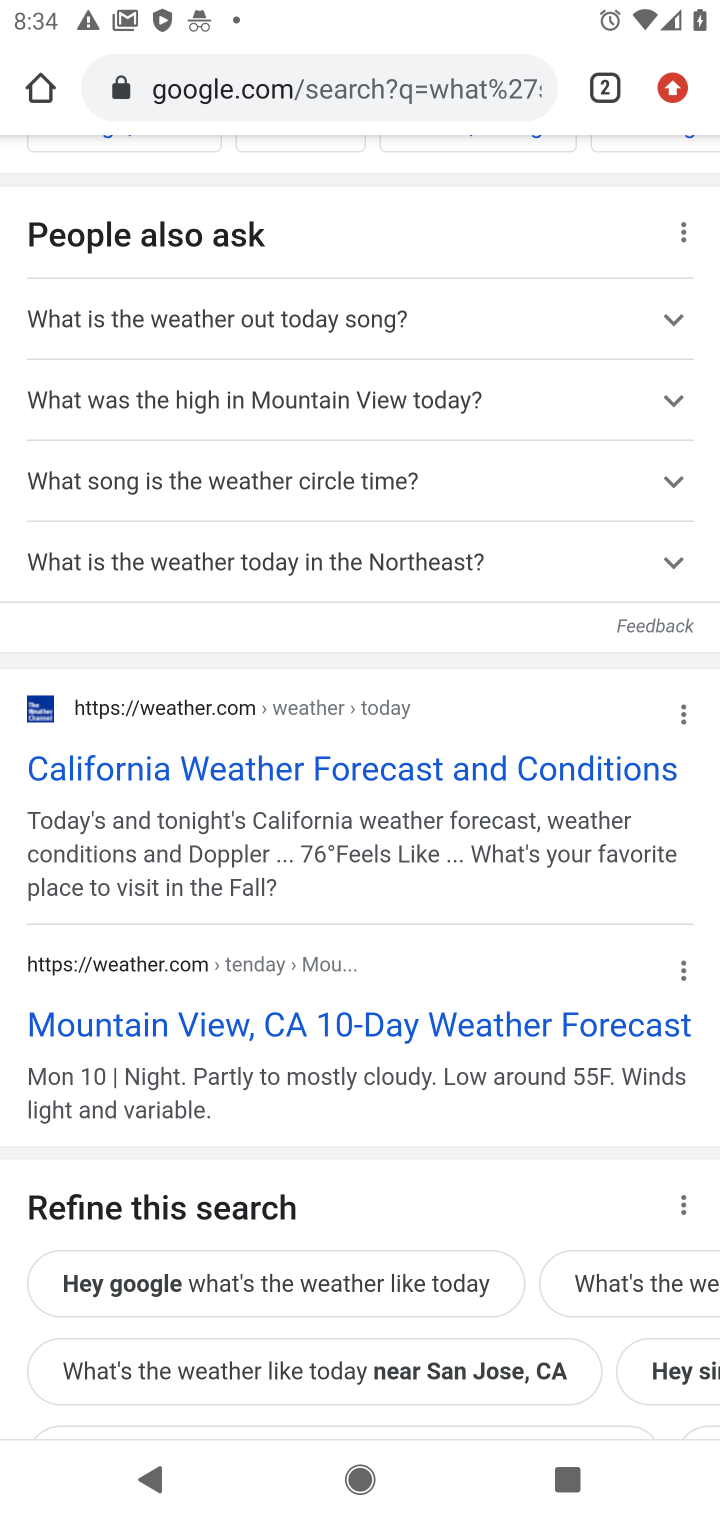
Step 25: drag from (260, 467) to (269, 1165)
Your task to perform on an android device: What's the weather like in Tokyo? Image 26: 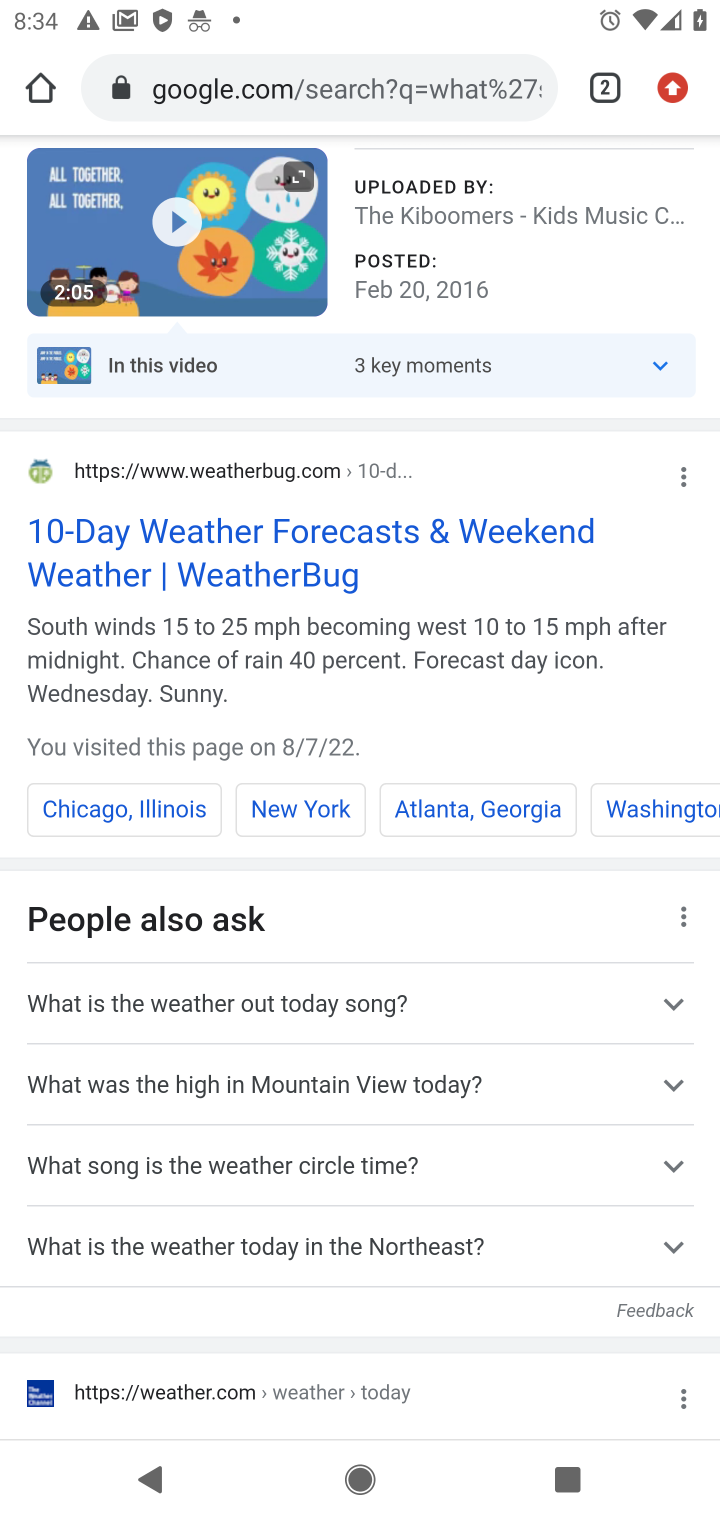
Step 26: click (166, 240)
Your task to perform on an android device: What's the weather like in Tokyo? Image 27: 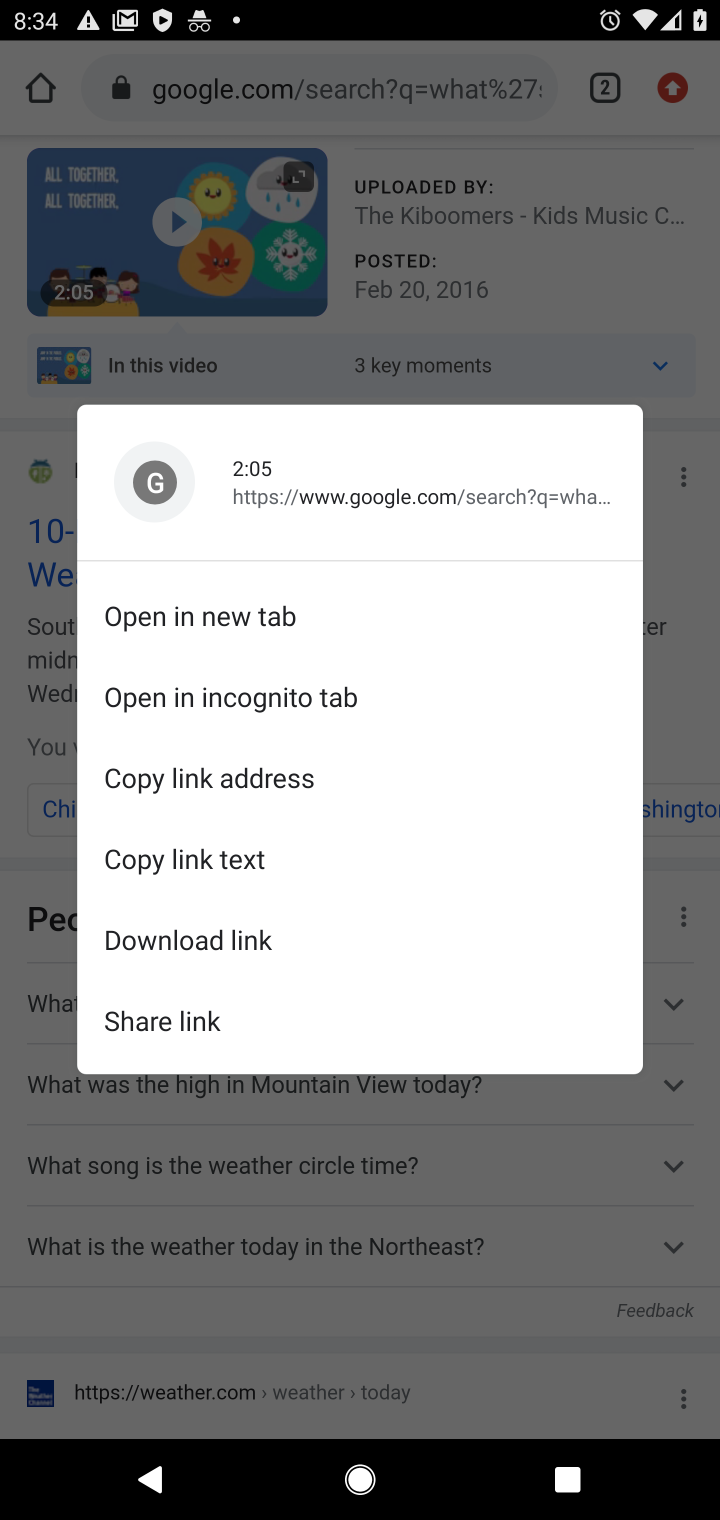
Step 27: click (166, 240)
Your task to perform on an android device: What's the weather like in Tokyo? Image 28: 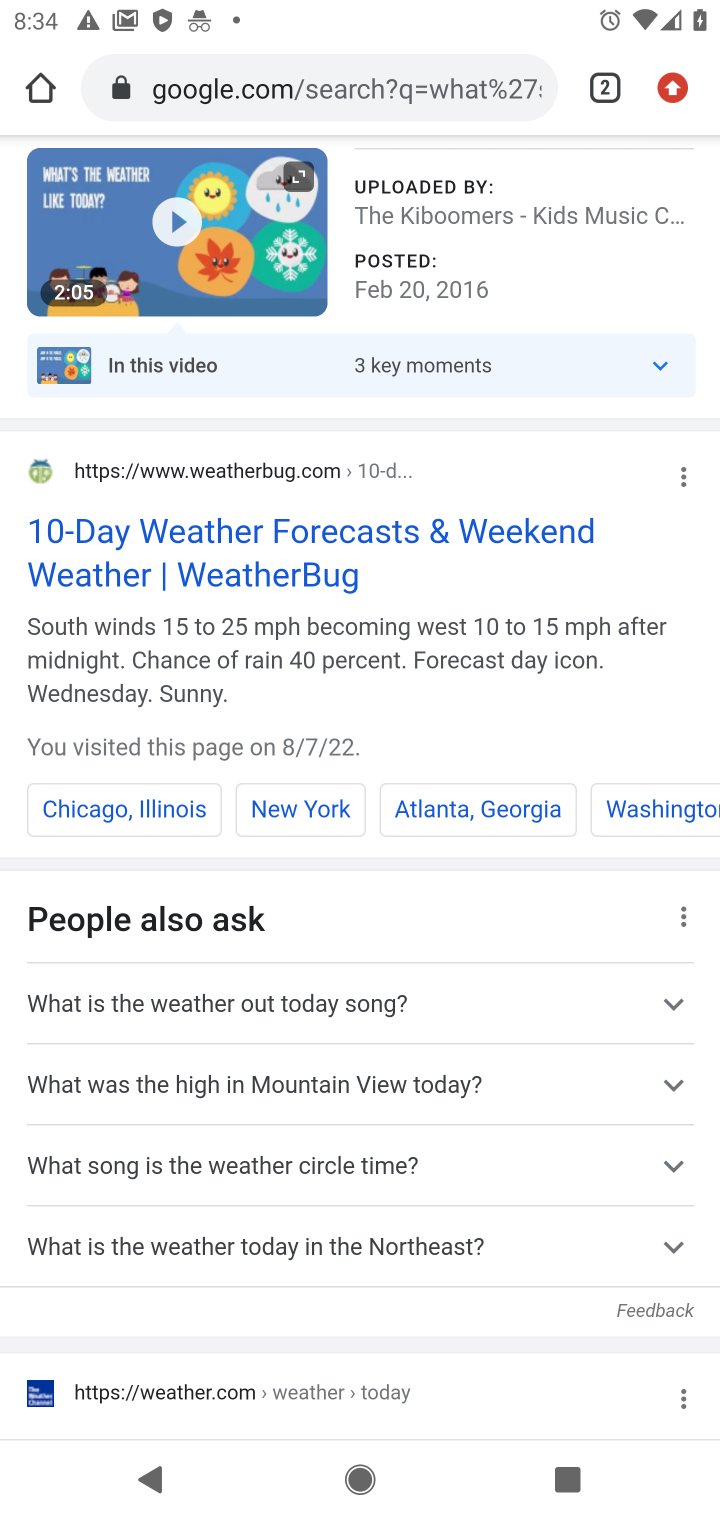
Step 28: click (99, 560)
Your task to perform on an android device: What's the weather like in Tokyo? Image 29: 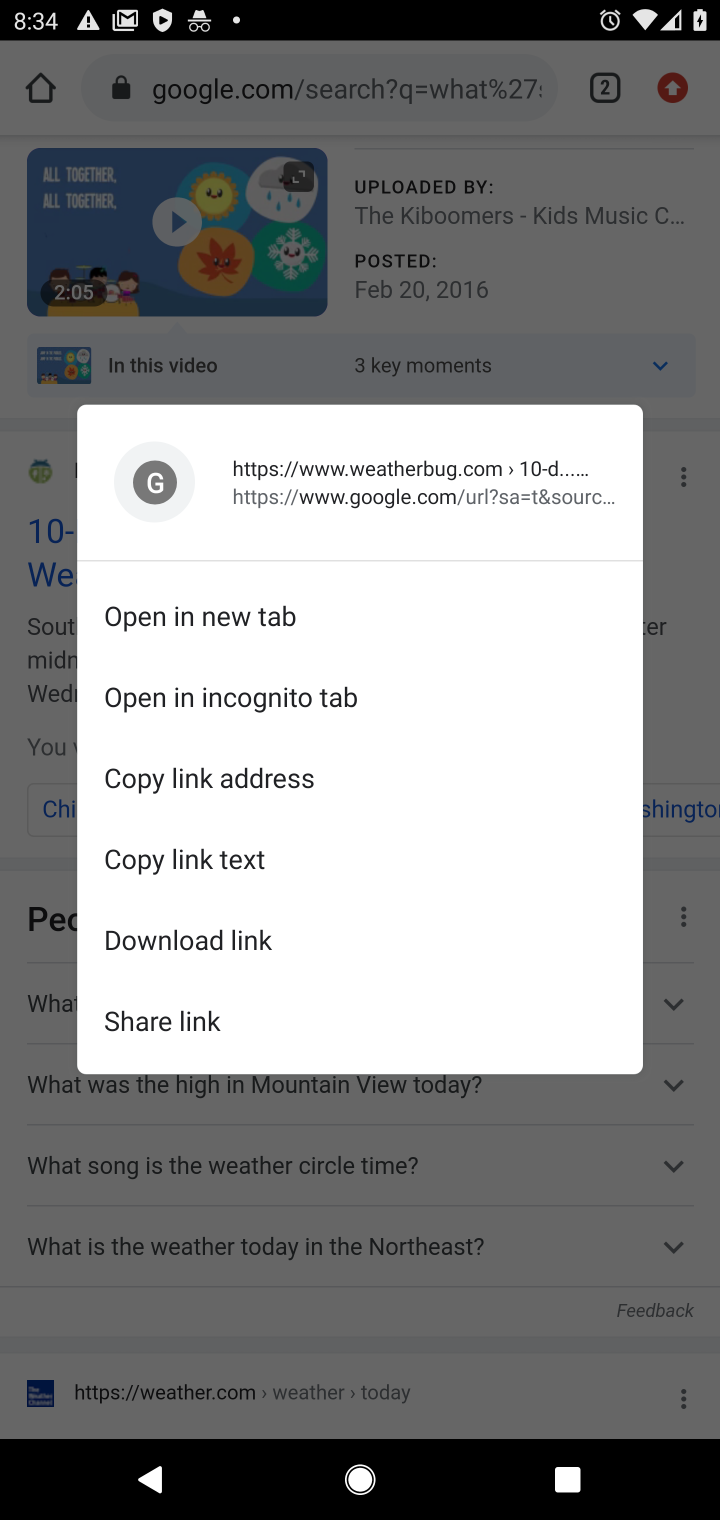
Step 29: click (565, 315)
Your task to perform on an android device: What's the weather like in Tokyo? Image 30: 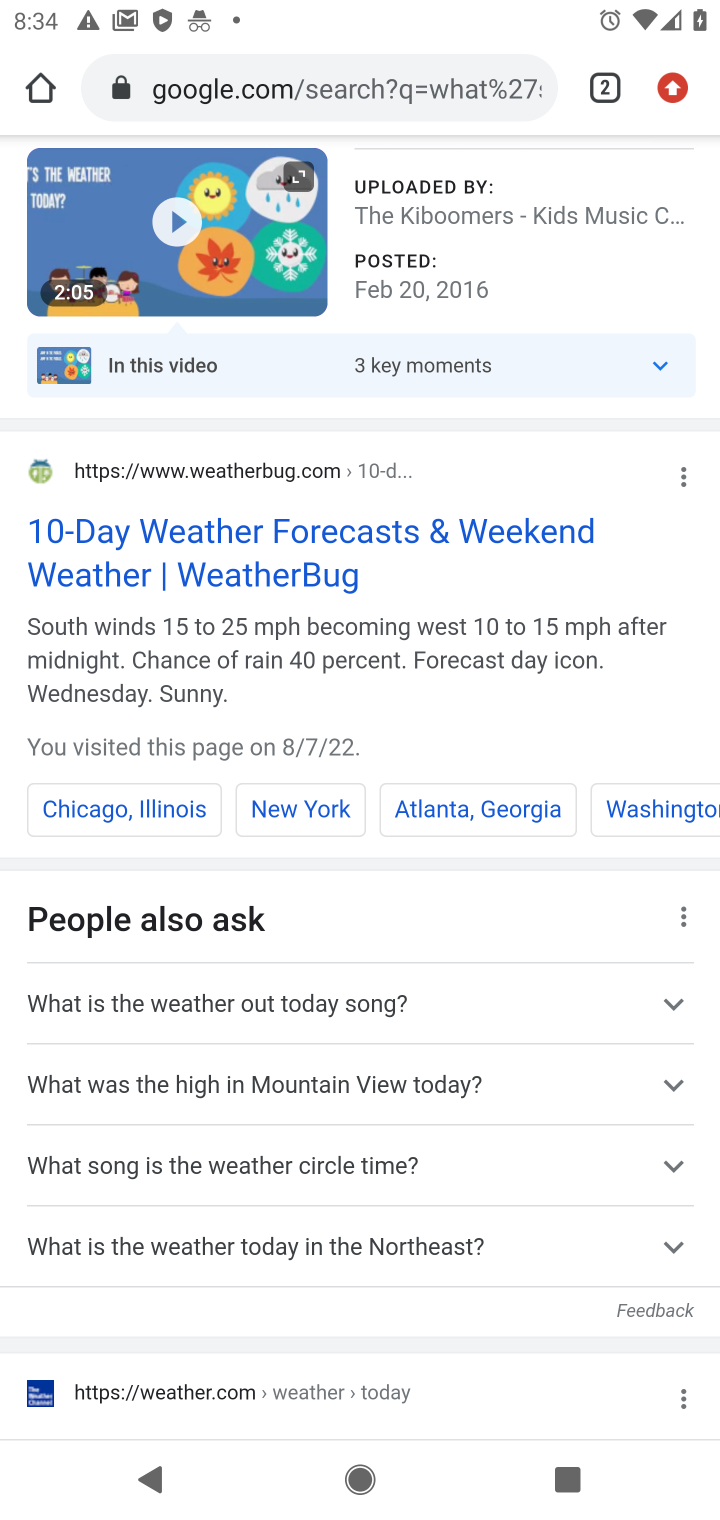
Step 30: drag from (526, 739) to (540, 1187)
Your task to perform on an android device: What's the weather like in Tokyo? Image 31: 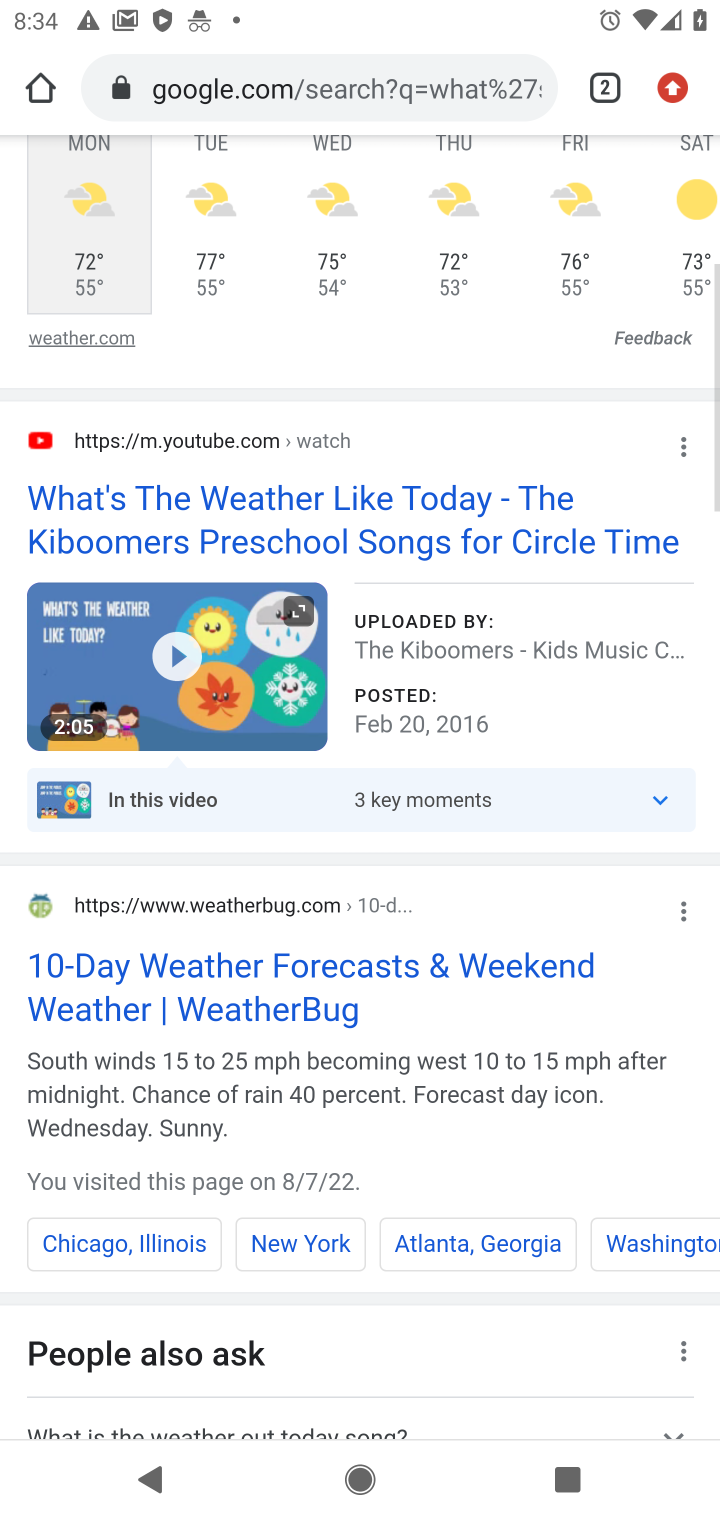
Step 31: drag from (456, 774) to (461, 1250)
Your task to perform on an android device: What's the weather like in Tokyo? Image 32: 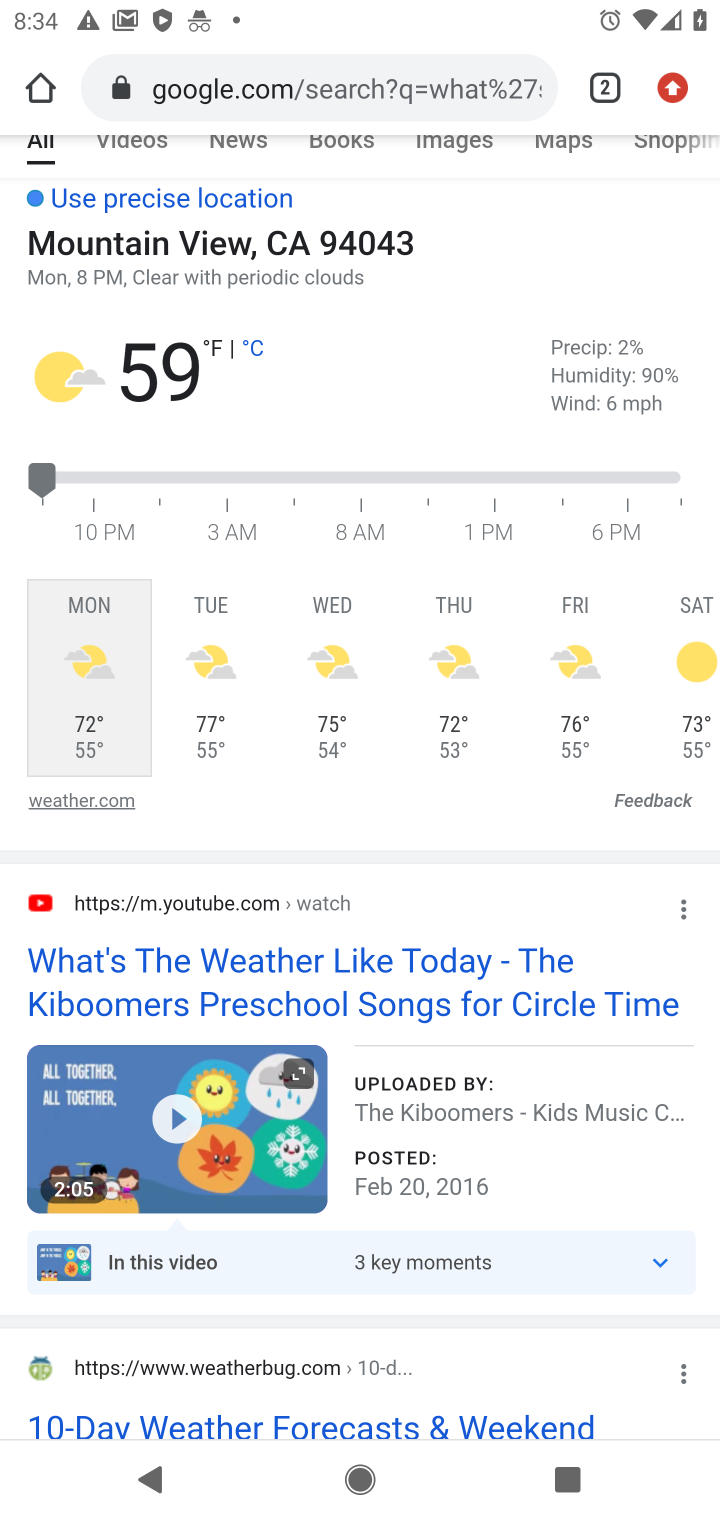
Step 32: click (64, 482)
Your task to perform on an android device: What's the weather like in Tokyo? Image 33: 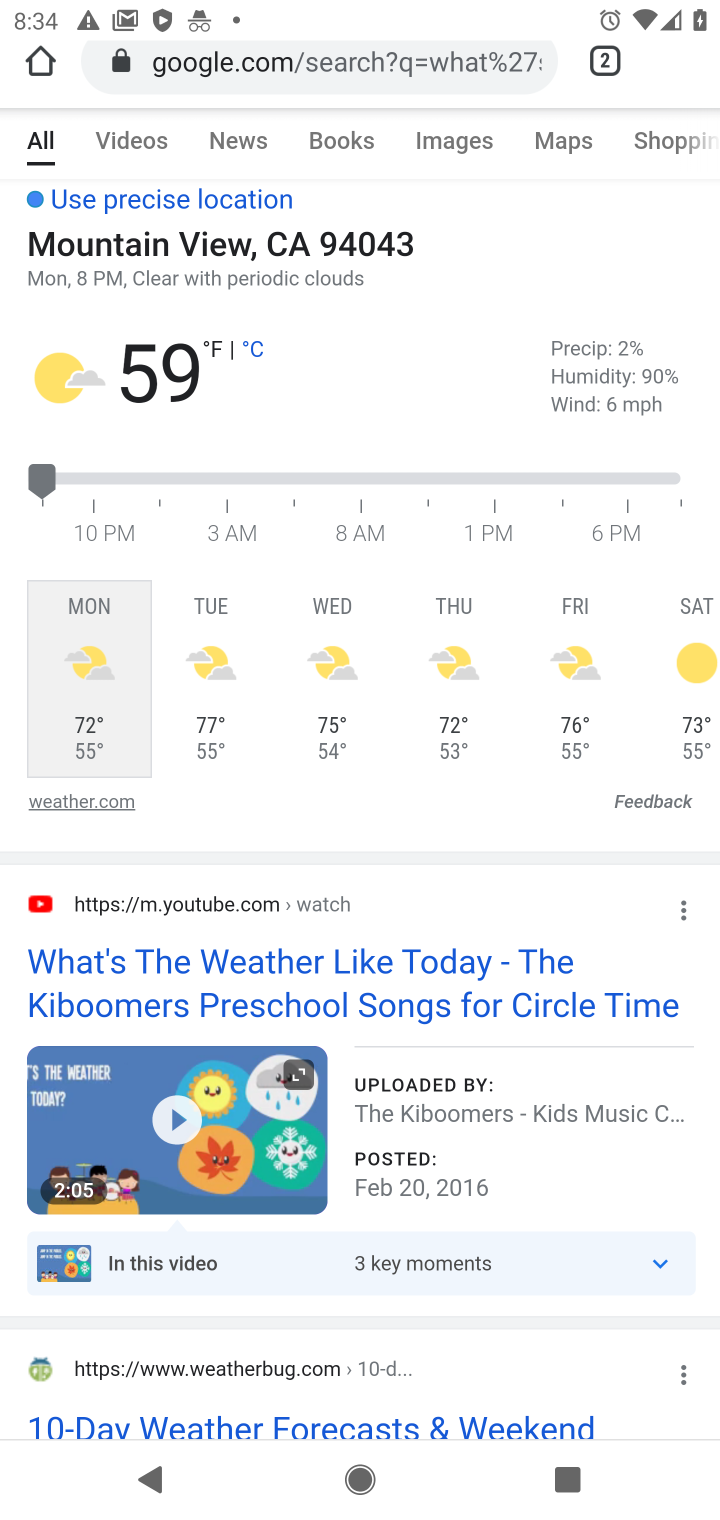
Step 33: drag from (450, 1326) to (581, 353)
Your task to perform on an android device: What's the weather like in Tokyo? Image 34: 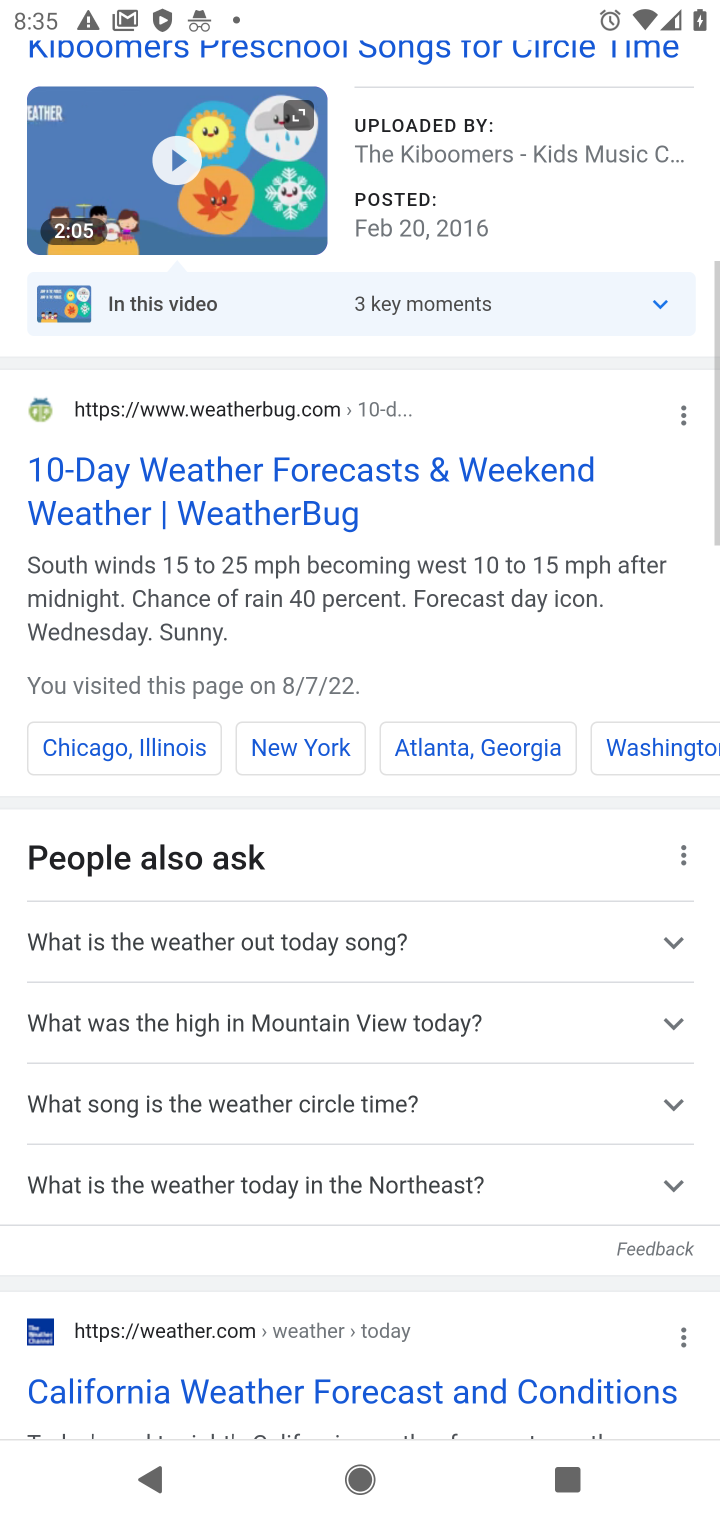
Step 34: drag from (377, 581) to (359, 502)
Your task to perform on an android device: What's the weather like in Tokyo? Image 35: 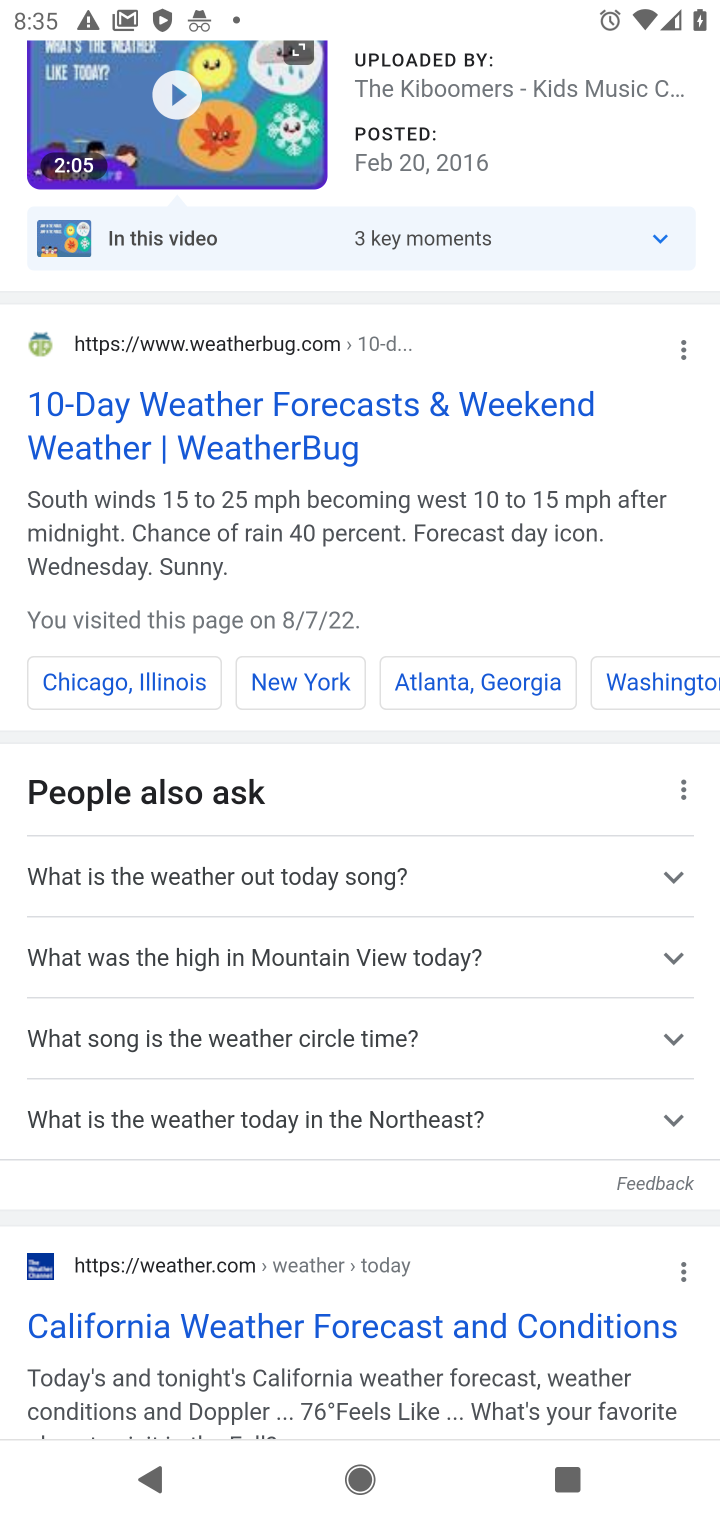
Step 35: click (230, 409)
Your task to perform on an android device: What's the weather like in Tokyo? Image 36: 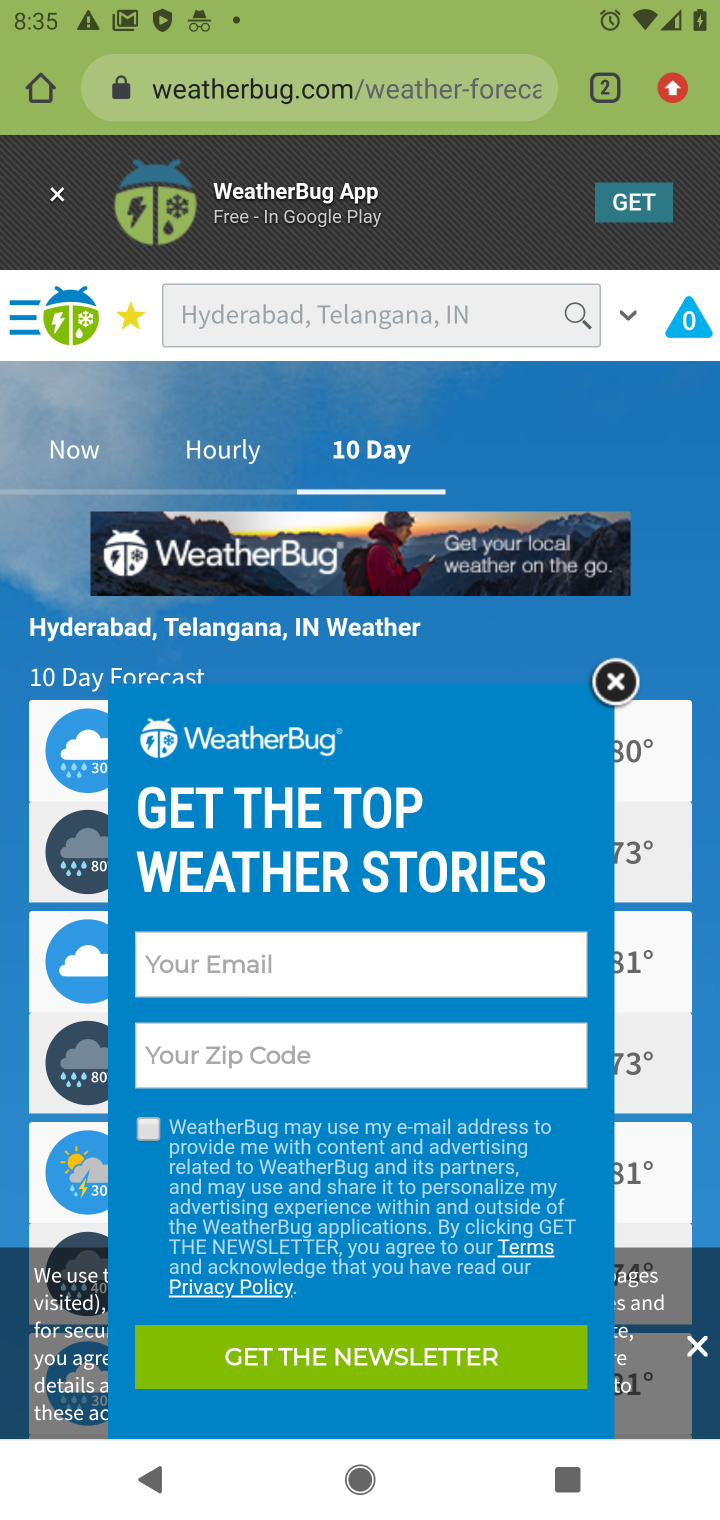
Step 36: click (612, 684)
Your task to perform on an android device: What's the weather like in Tokyo? Image 37: 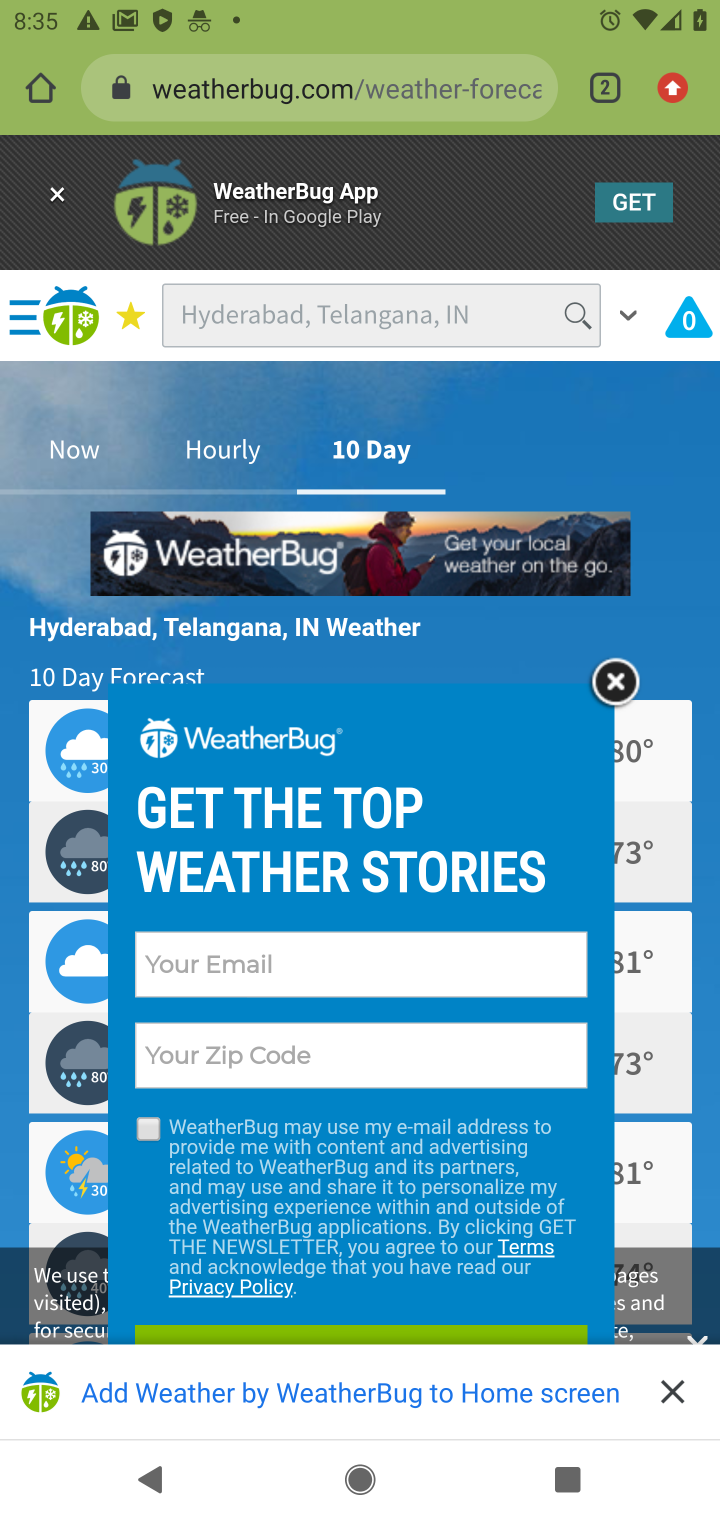
Step 37: click (610, 679)
Your task to perform on an android device: What's the weather like in Tokyo? Image 38: 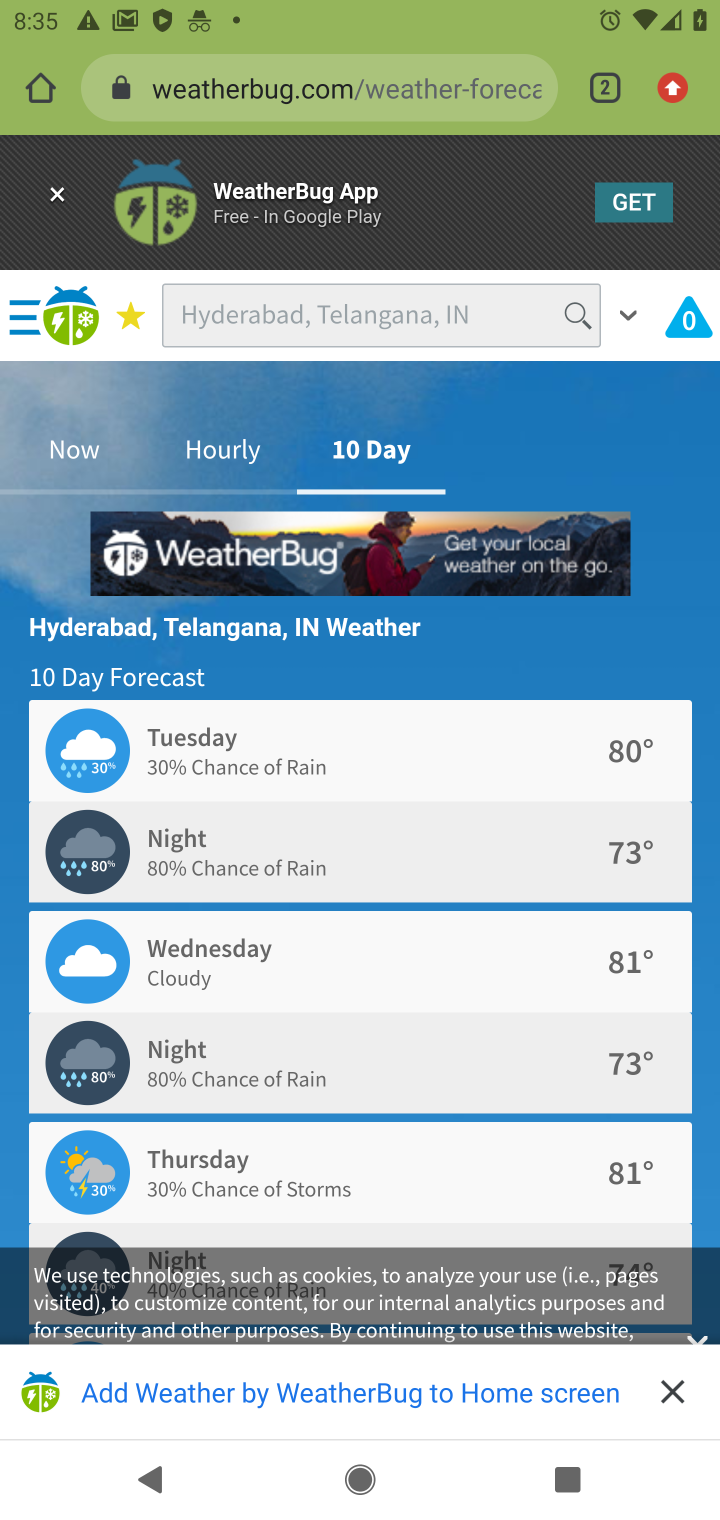
Step 38: drag from (453, 925) to (478, 237)
Your task to perform on an android device: What's the weather like in Tokyo? Image 39: 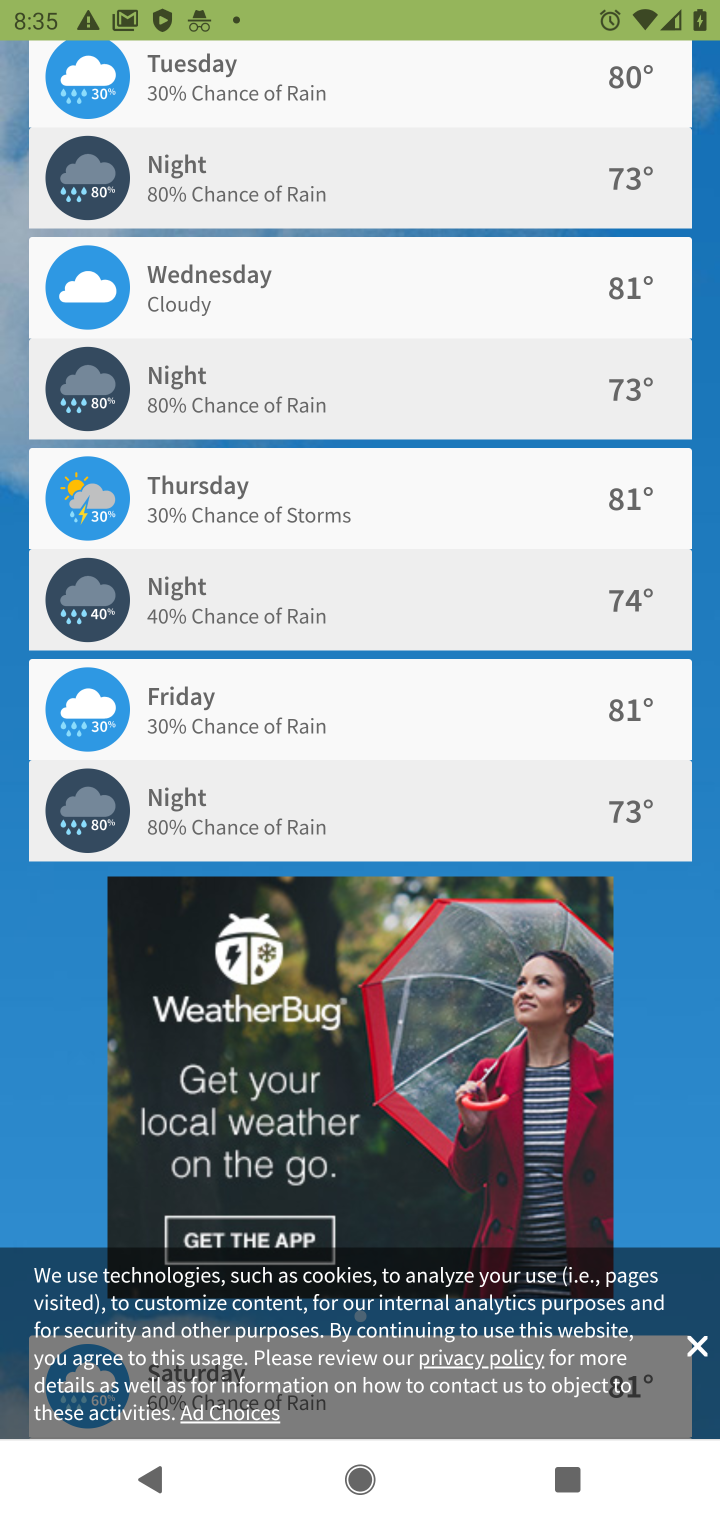
Step 39: click (691, 1344)
Your task to perform on an android device: What's the weather like in Tokyo? Image 40: 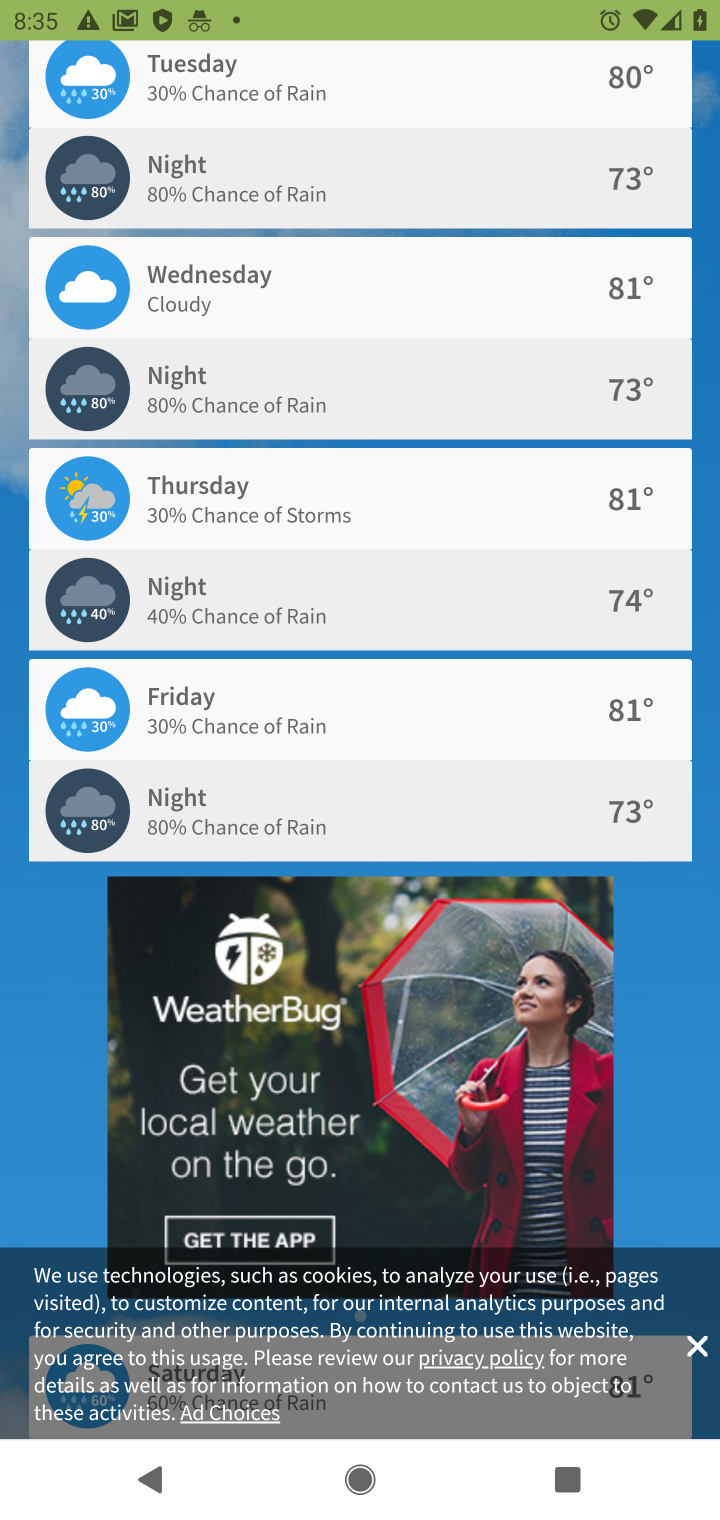
Step 40: drag from (597, 788) to (639, 336)
Your task to perform on an android device: What's the weather like in Tokyo? Image 41: 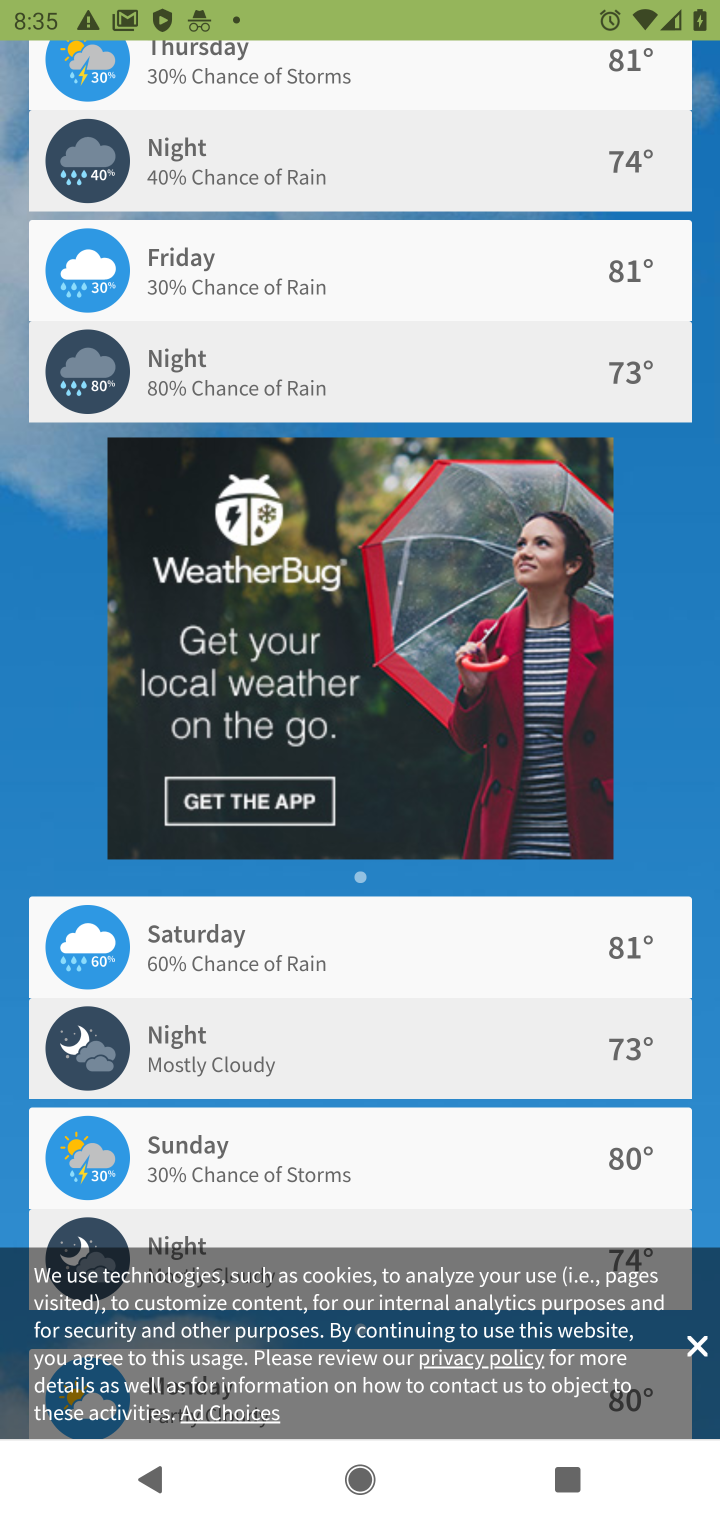
Step 41: drag from (641, 1019) to (647, 299)
Your task to perform on an android device: What's the weather like in Tokyo? Image 42: 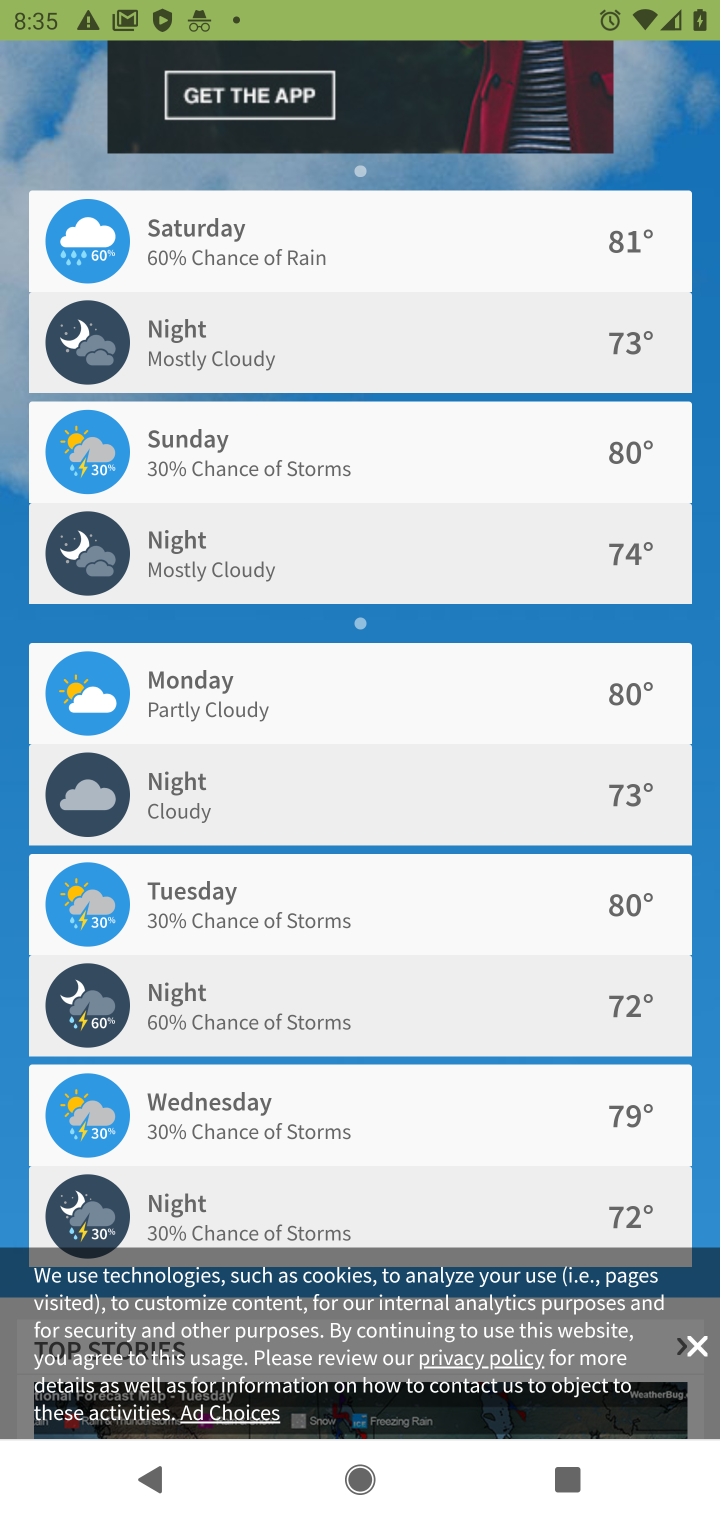
Step 42: drag from (530, 1059) to (610, 208)
Your task to perform on an android device: What's the weather like in Tokyo? Image 43: 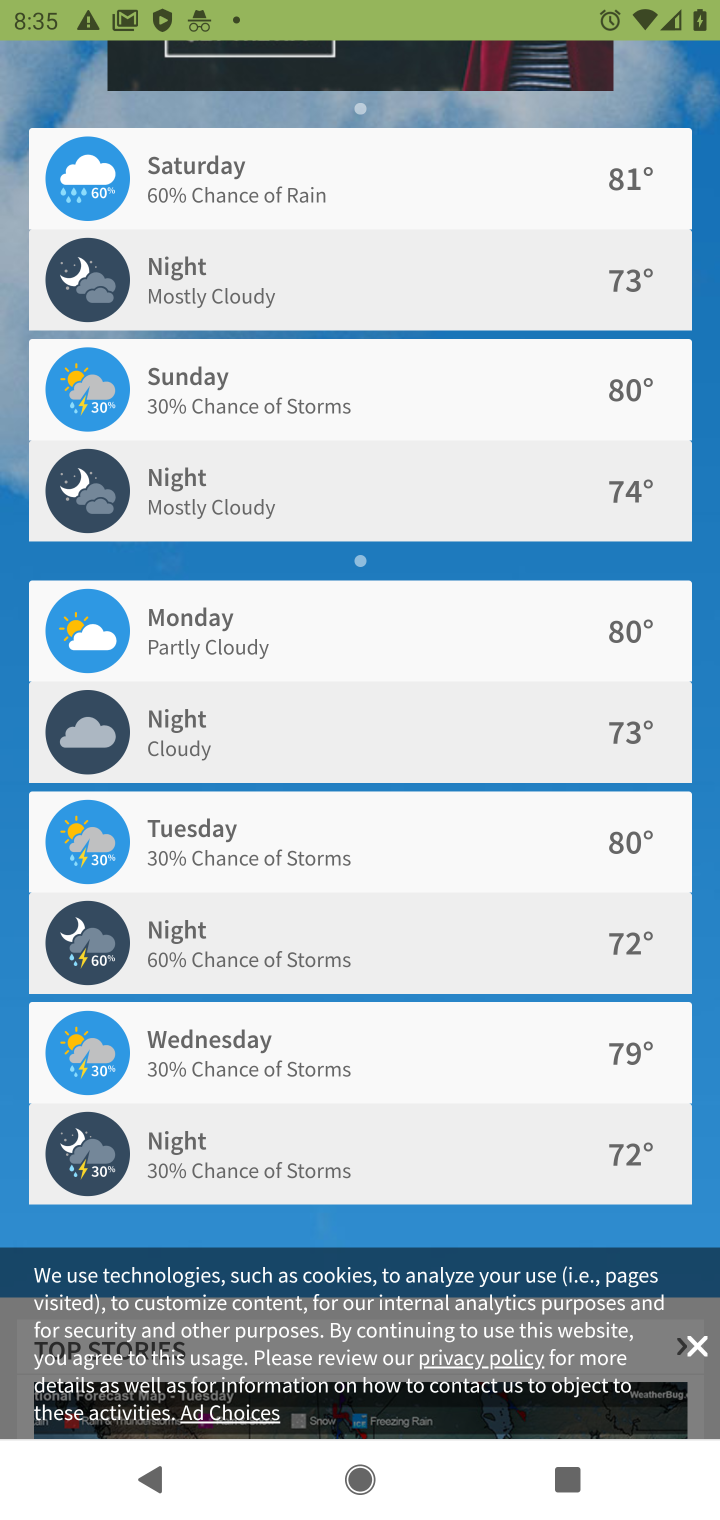
Step 43: drag from (662, 674) to (705, 229)
Your task to perform on an android device: What's the weather like in Tokyo? Image 44: 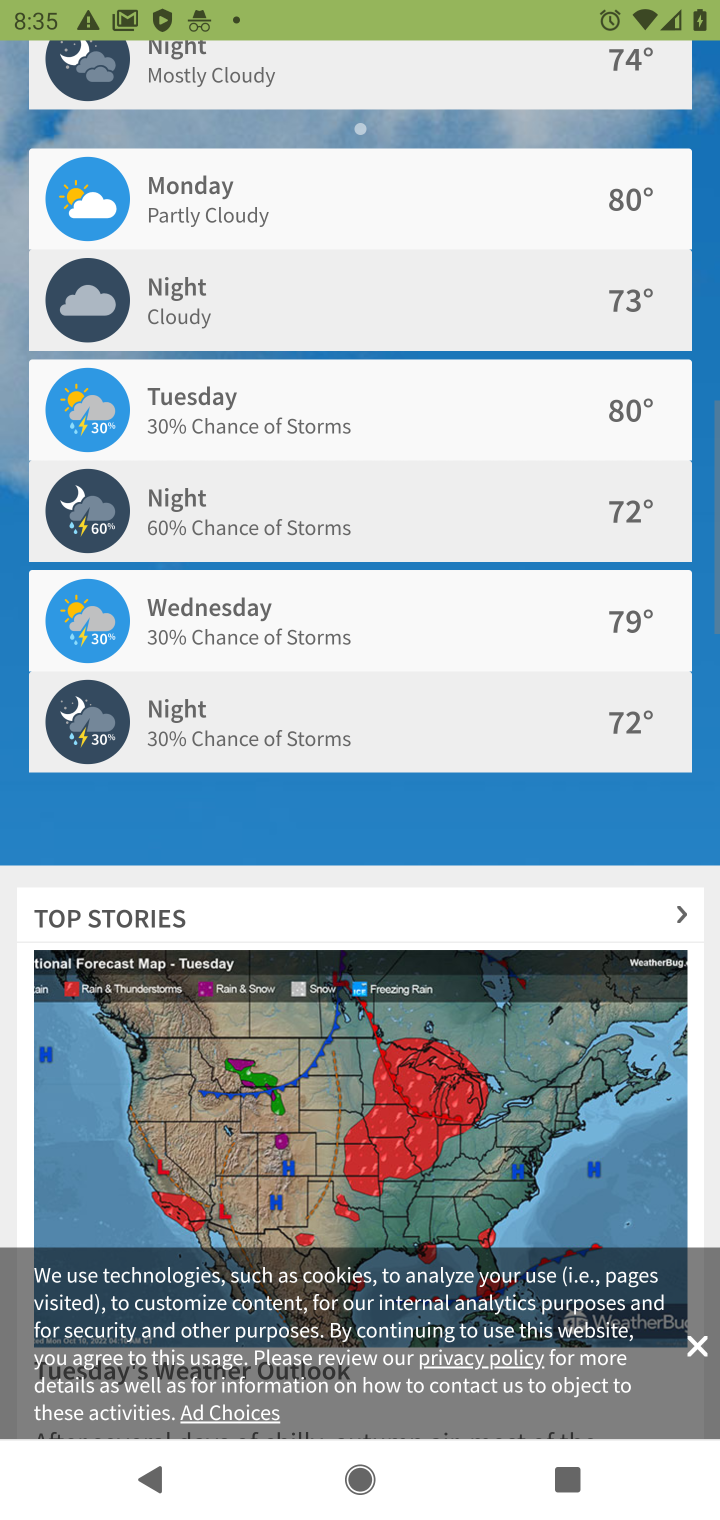
Step 44: drag from (624, 1058) to (590, 262)
Your task to perform on an android device: What's the weather like in Tokyo? Image 45: 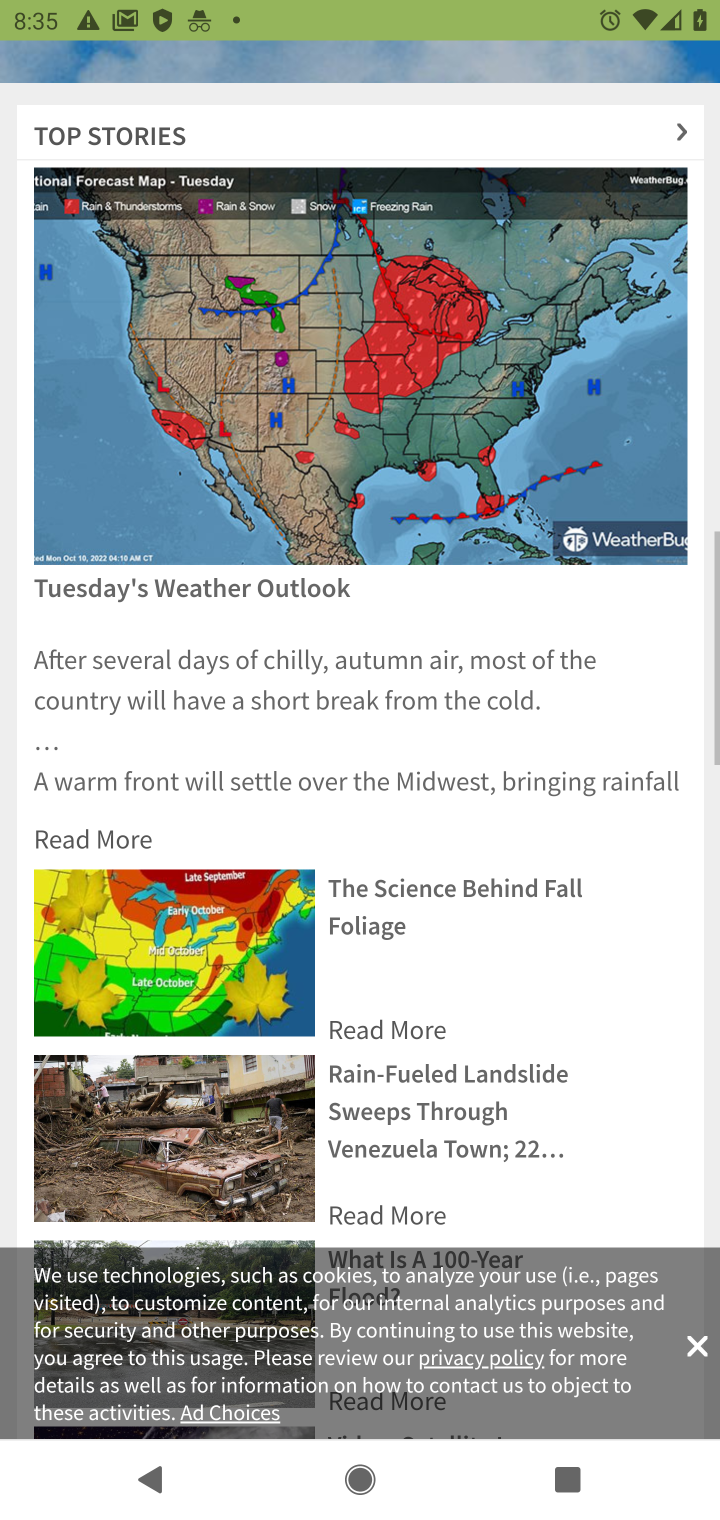
Step 45: drag from (470, 960) to (532, 211)
Your task to perform on an android device: What's the weather like in Tokyo? Image 46: 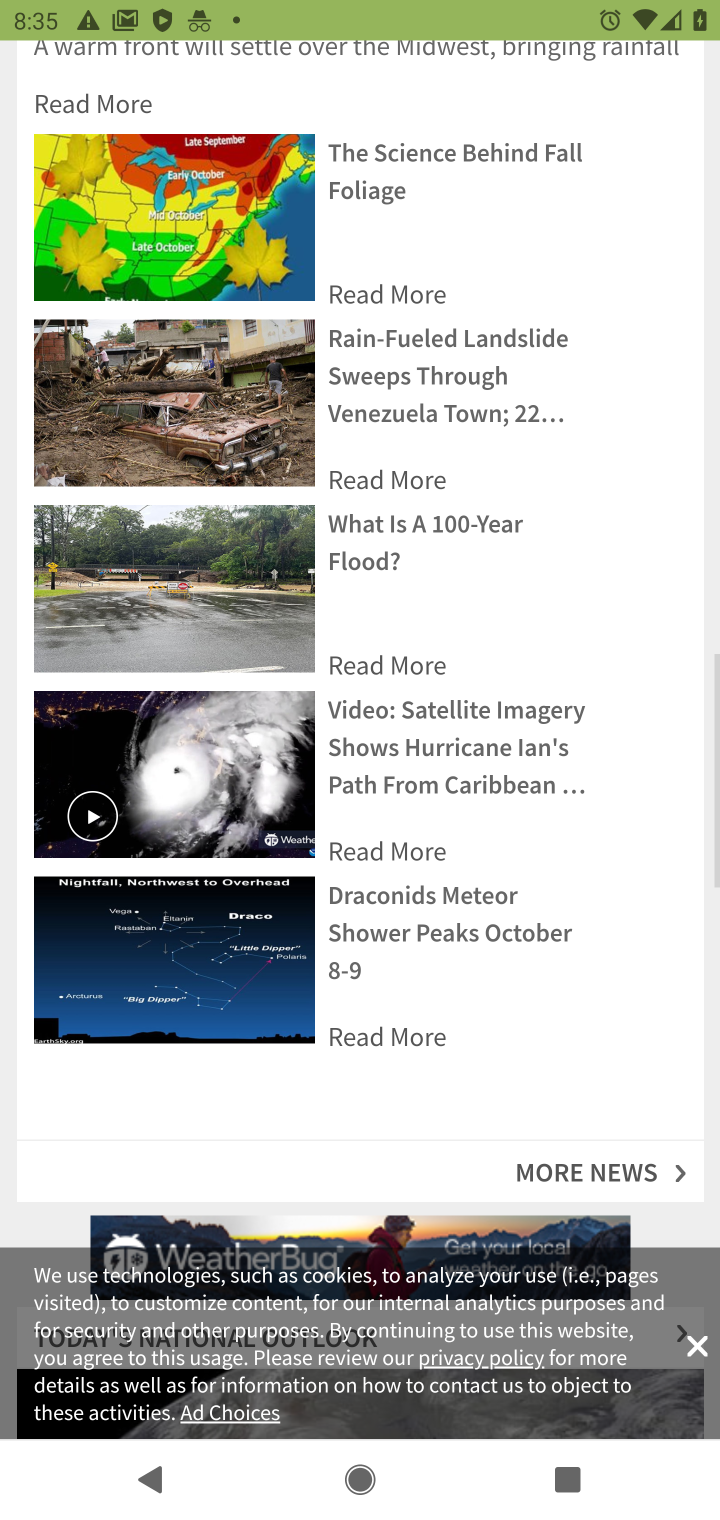
Step 46: drag from (433, 768) to (430, 320)
Your task to perform on an android device: What's the weather like in Tokyo? Image 47: 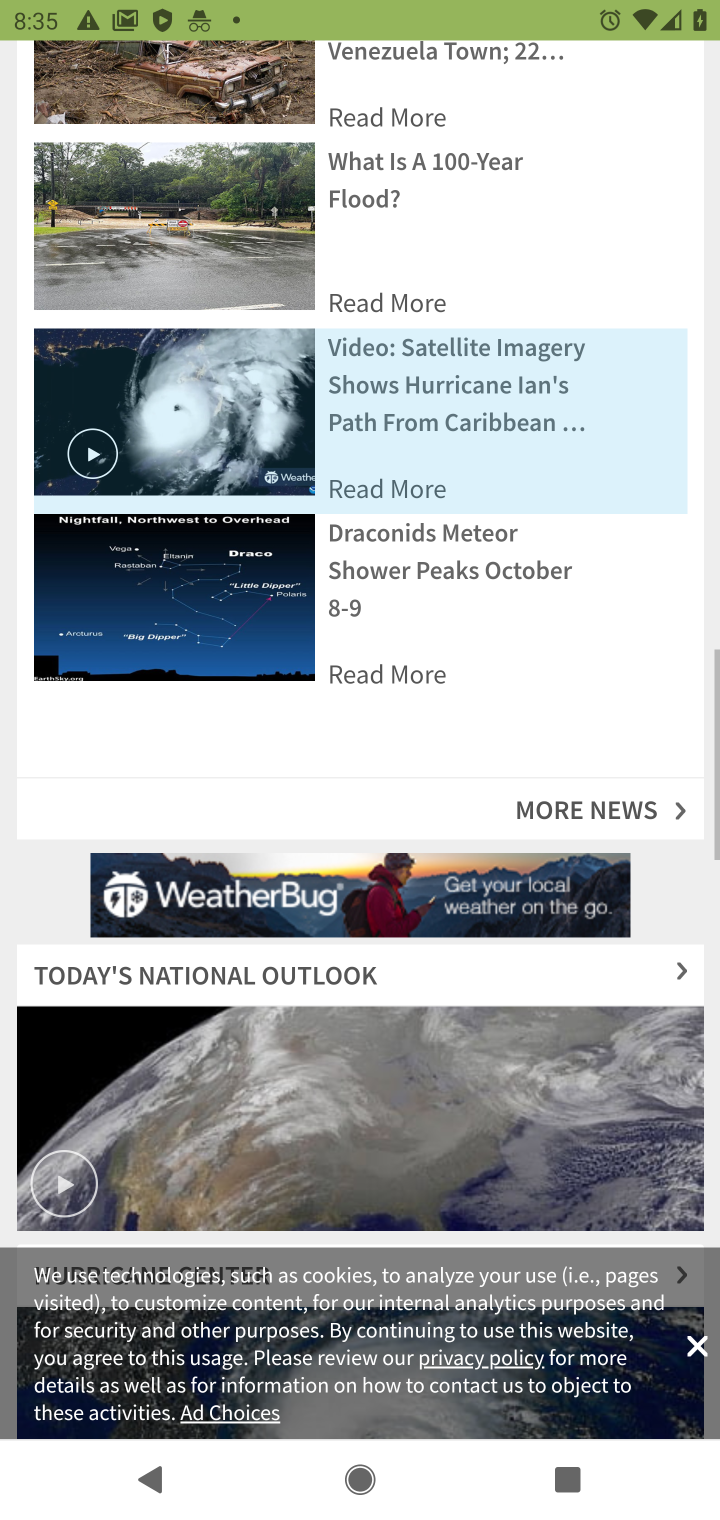
Step 47: drag from (491, 672) to (514, 318)
Your task to perform on an android device: What's the weather like in Tokyo? Image 48: 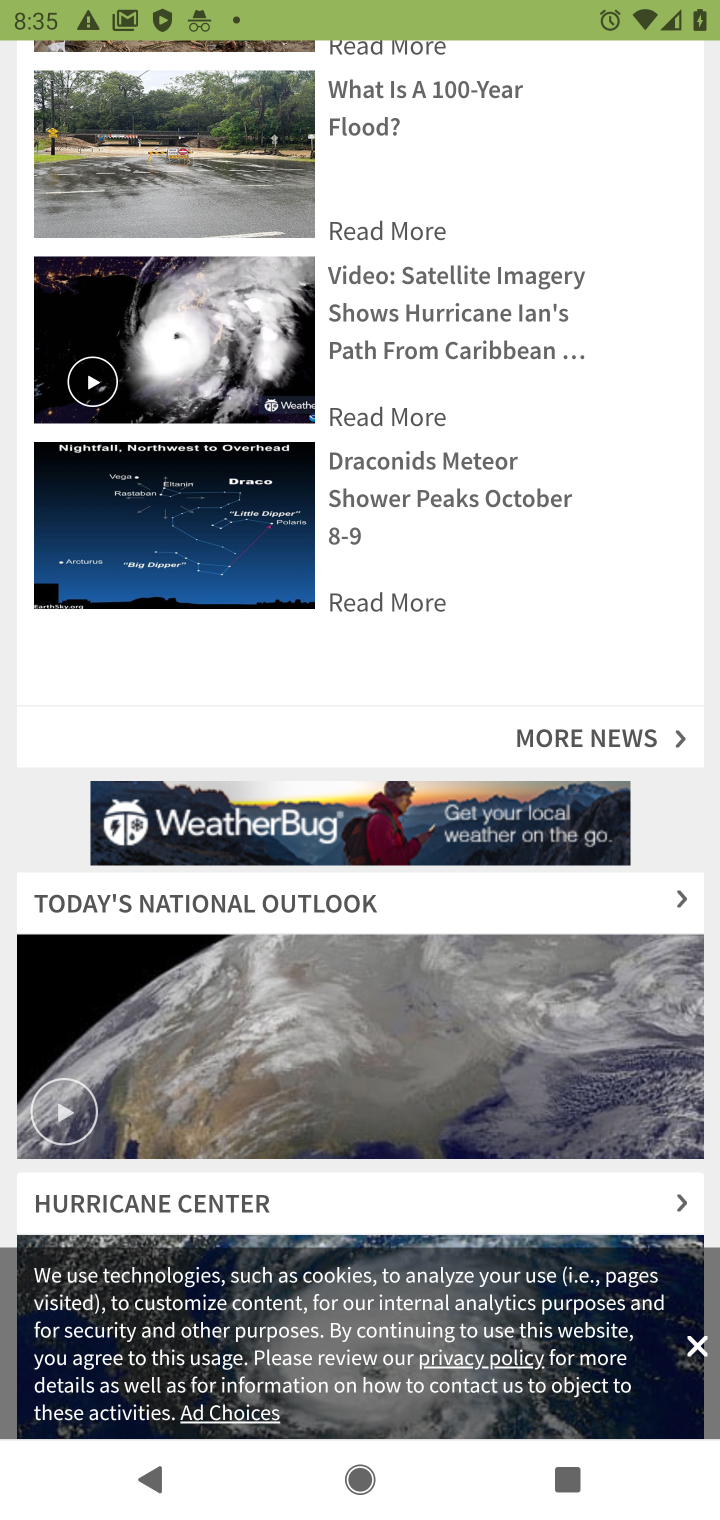
Step 48: drag from (570, 607) to (567, 272)
Your task to perform on an android device: What's the weather like in Tokyo? Image 49: 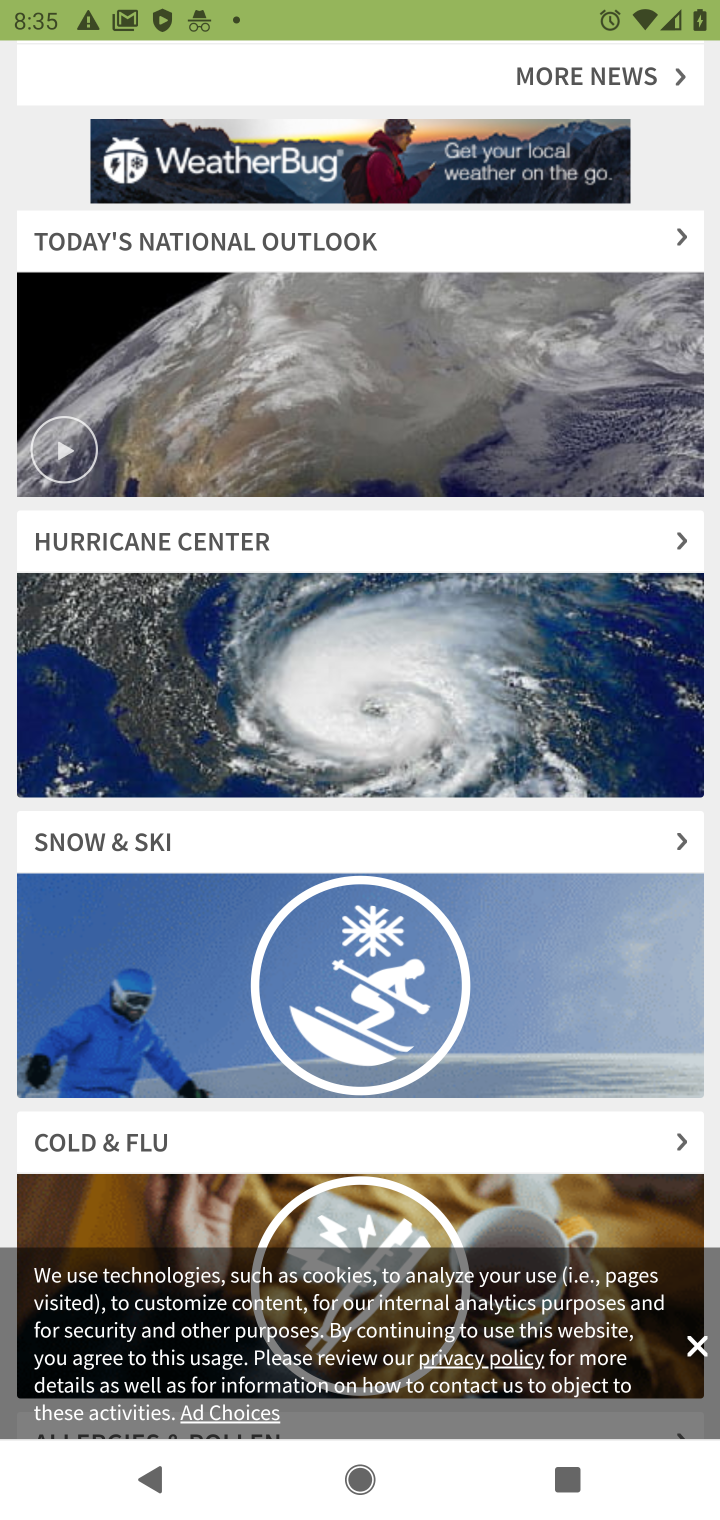
Step 49: drag from (610, 621) to (660, 371)
Your task to perform on an android device: What's the weather like in Tokyo? Image 50: 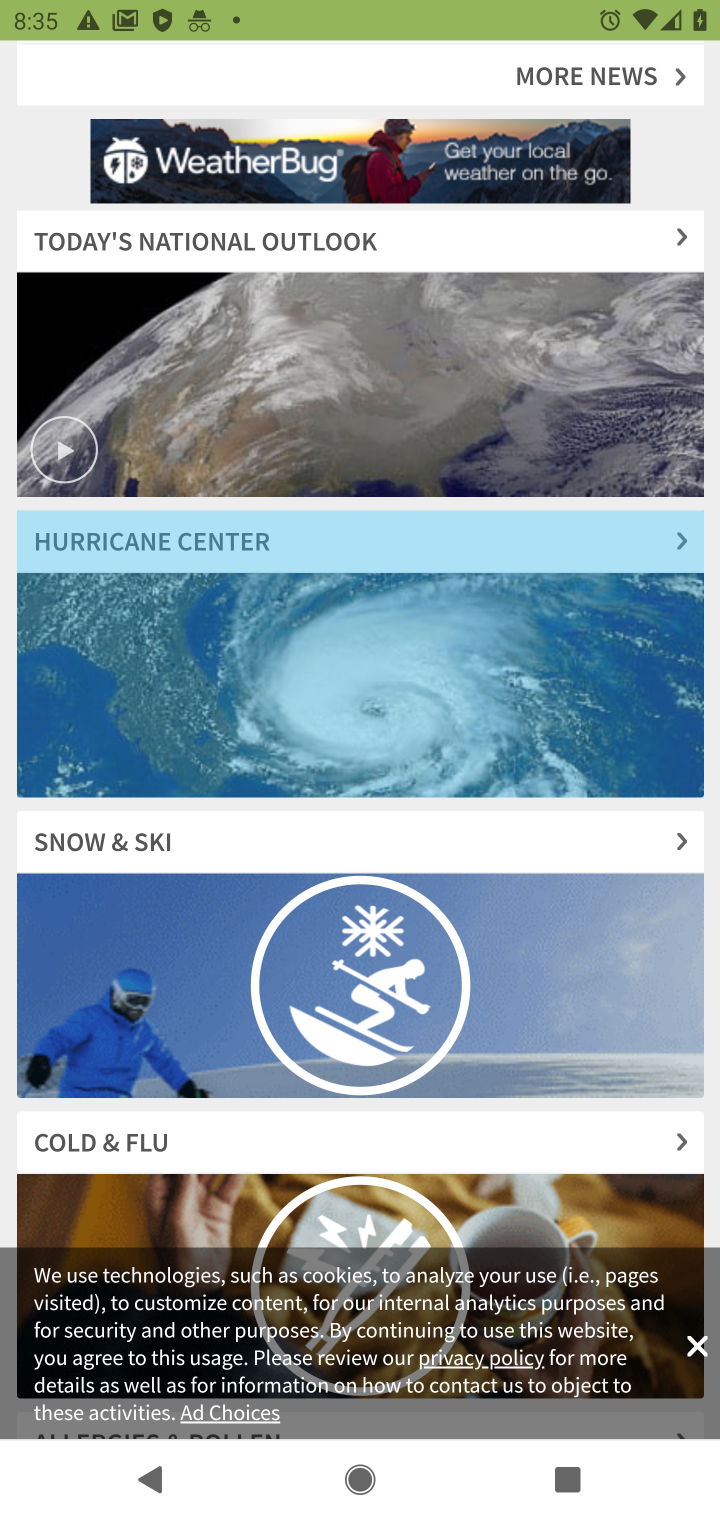
Step 50: drag from (639, 312) to (695, 1336)
Your task to perform on an android device: What's the weather like in Tokyo? Image 51: 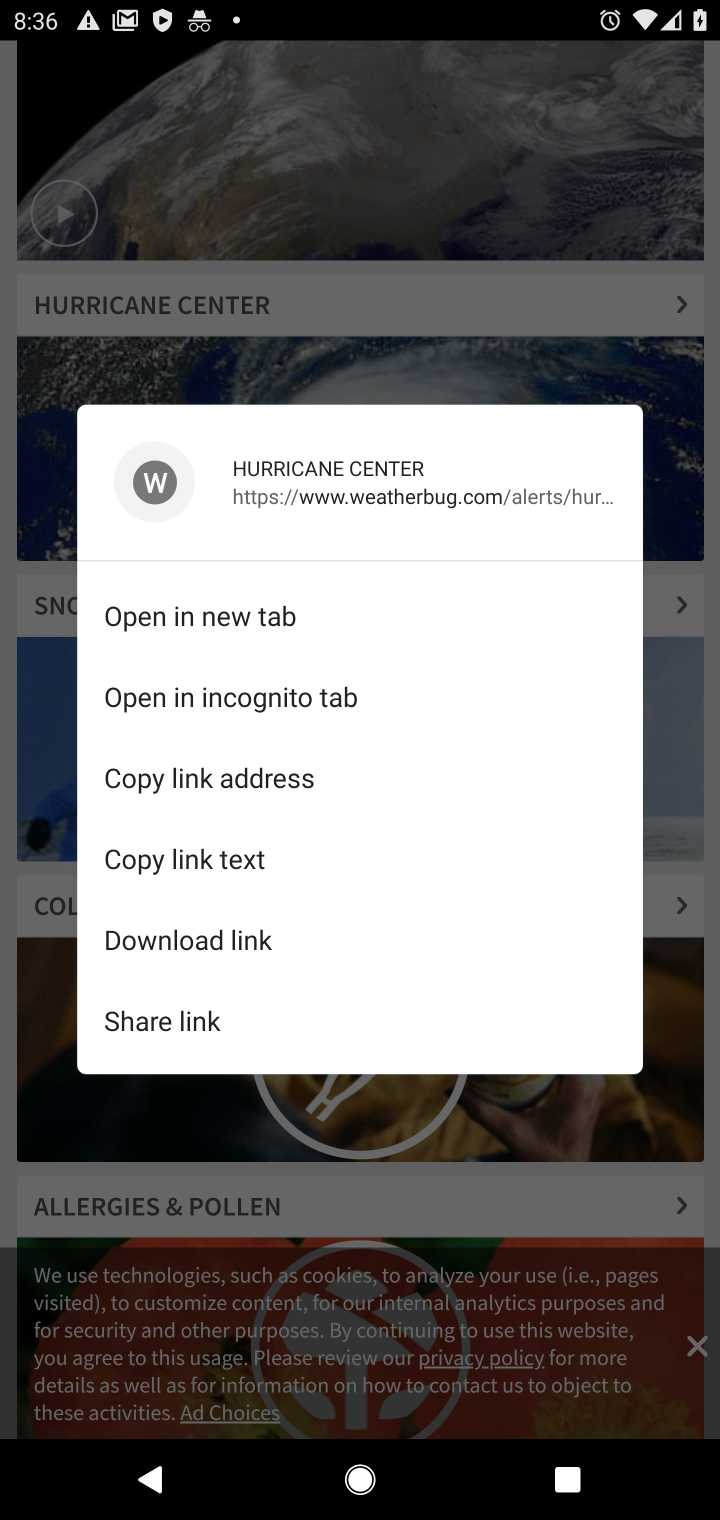
Step 51: click (426, 1116)
Your task to perform on an android device: What's the weather like in Tokyo? Image 52: 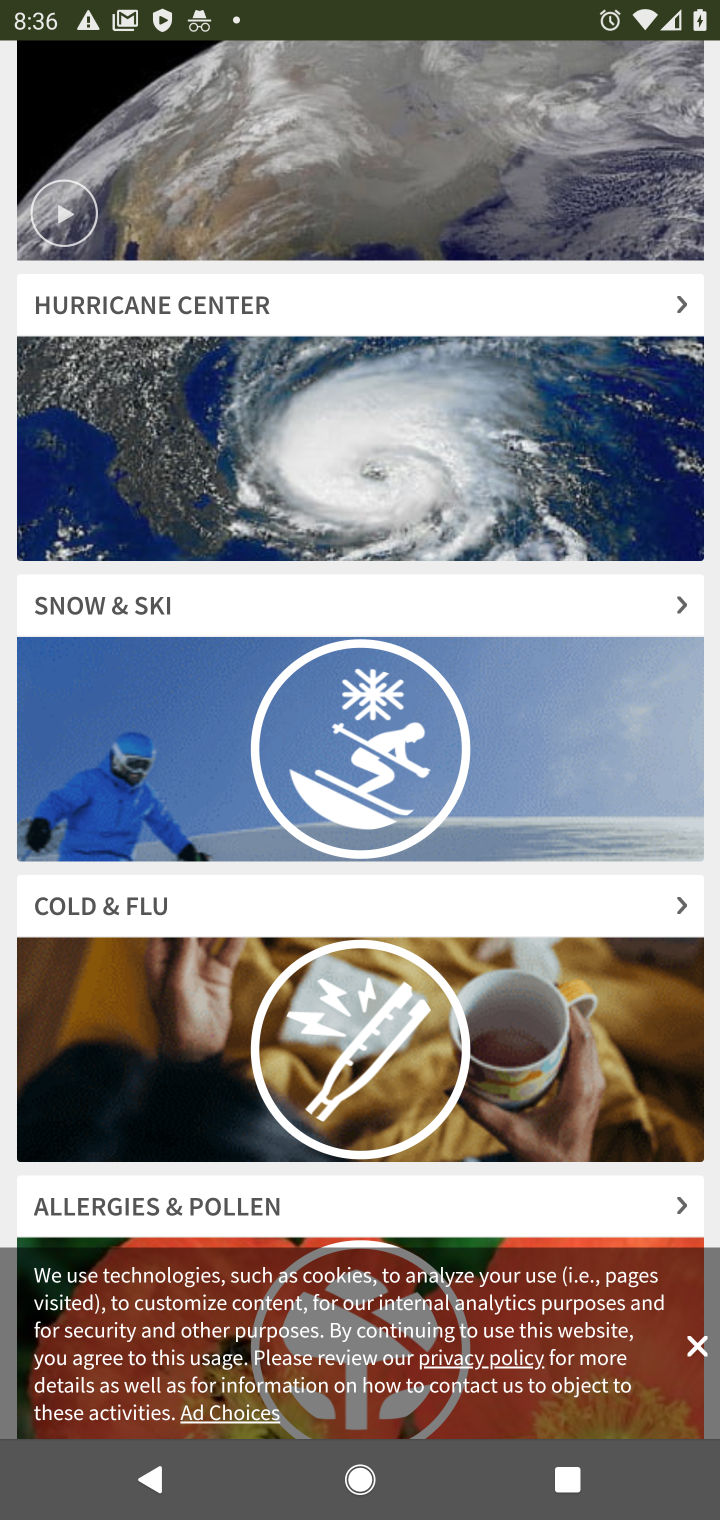
Step 52: drag from (419, 675) to (443, 215)
Your task to perform on an android device: What's the weather like in Tokyo? Image 53: 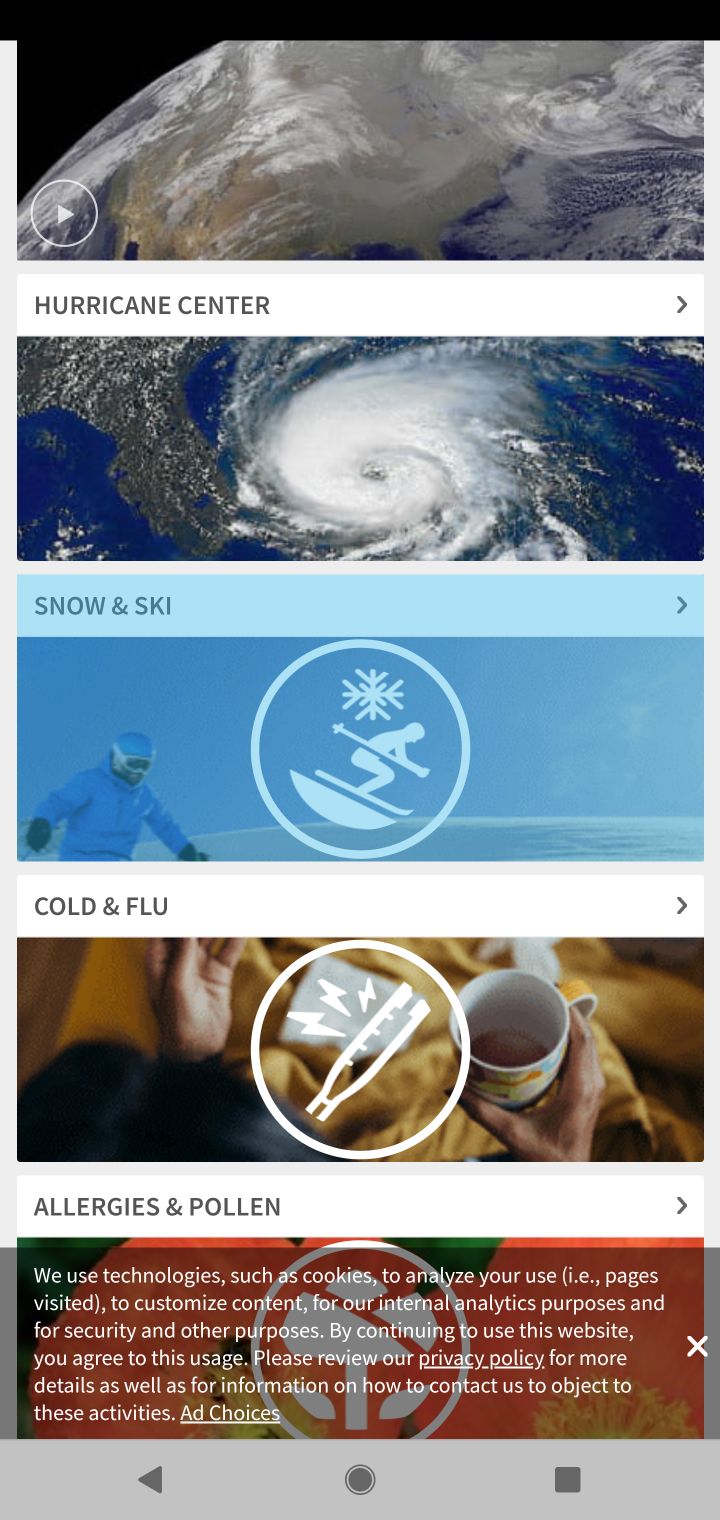
Step 53: click (419, 324)
Your task to perform on an android device: What's the weather like in Tokyo? Image 54: 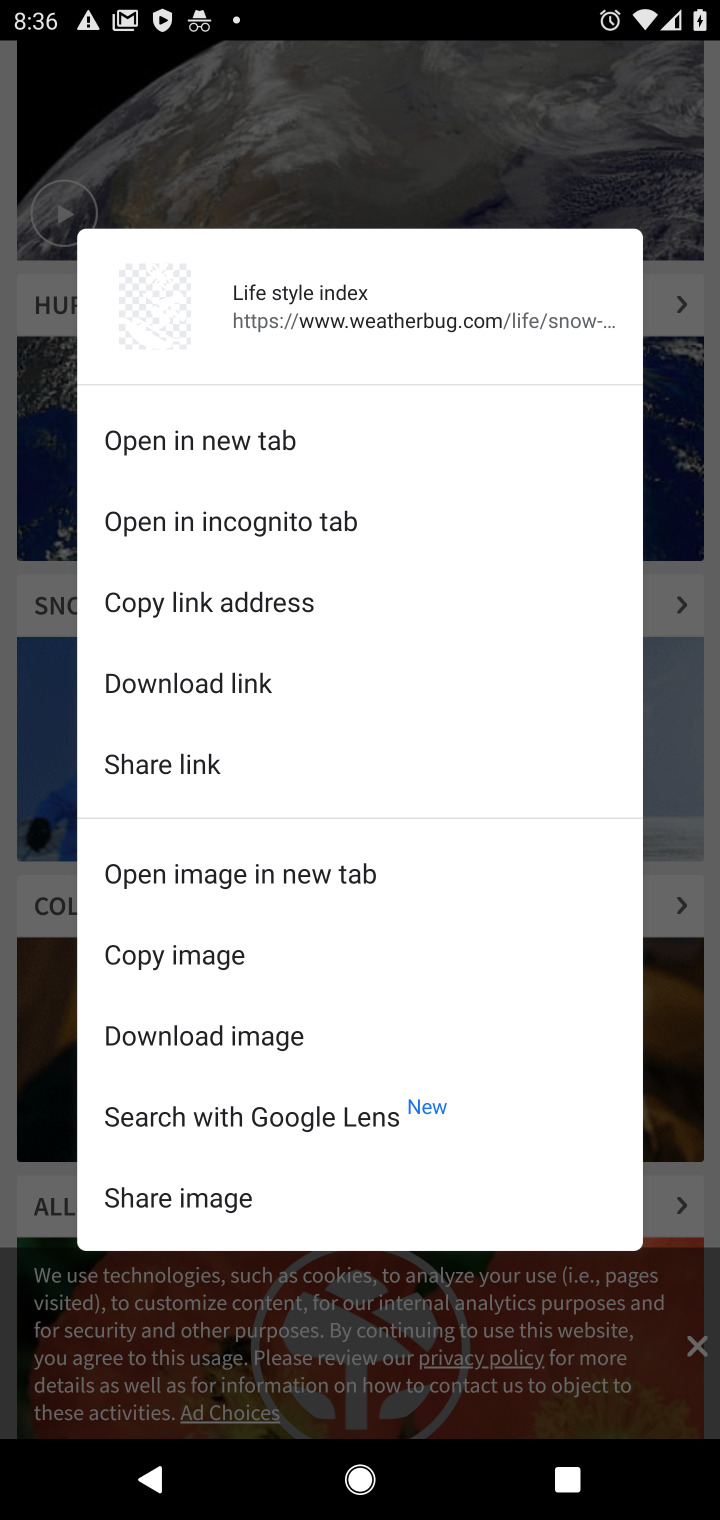
Step 54: drag from (424, 1164) to (550, 297)
Your task to perform on an android device: What's the weather like in Tokyo? Image 55: 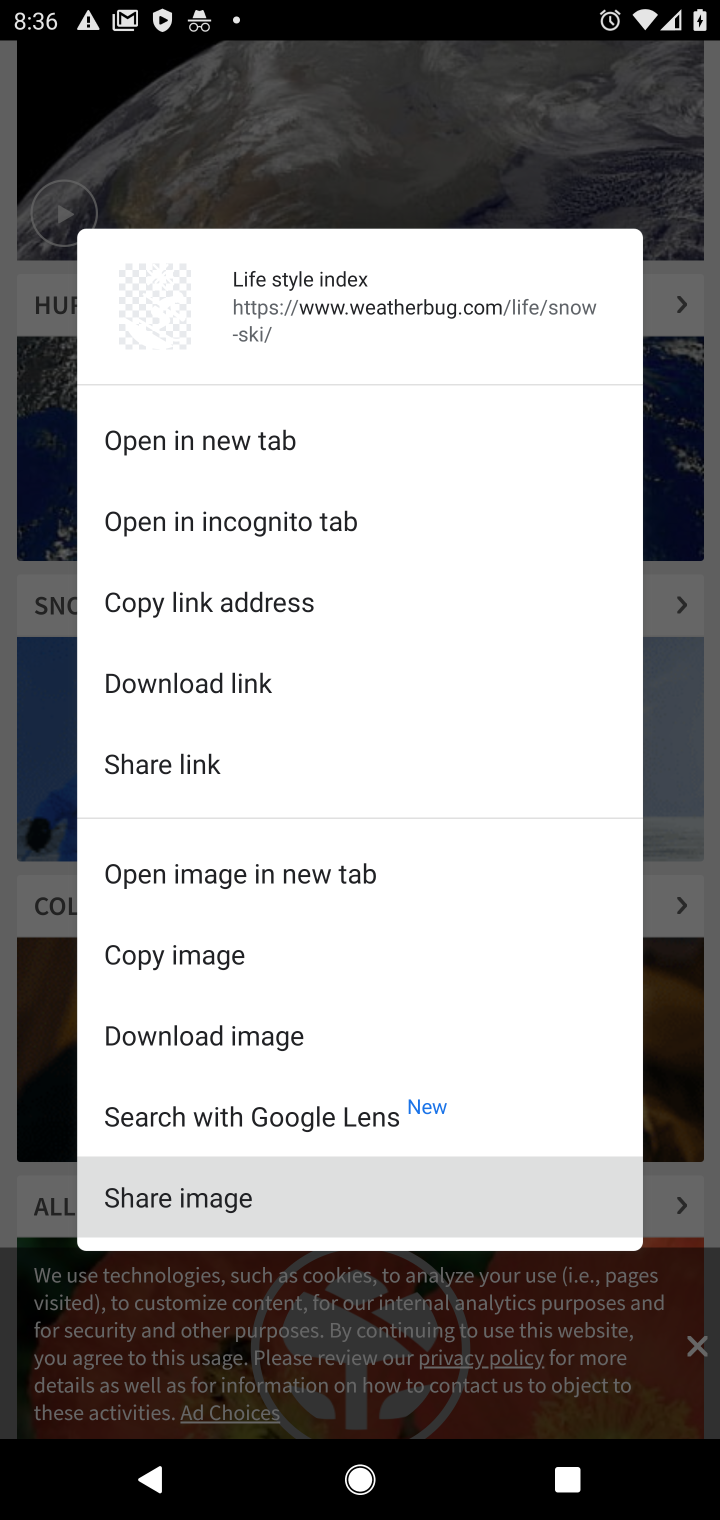
Step 55: click (635, 140)
Your task to perform on an android device: What's the weather like in Tokyo? Image 56: 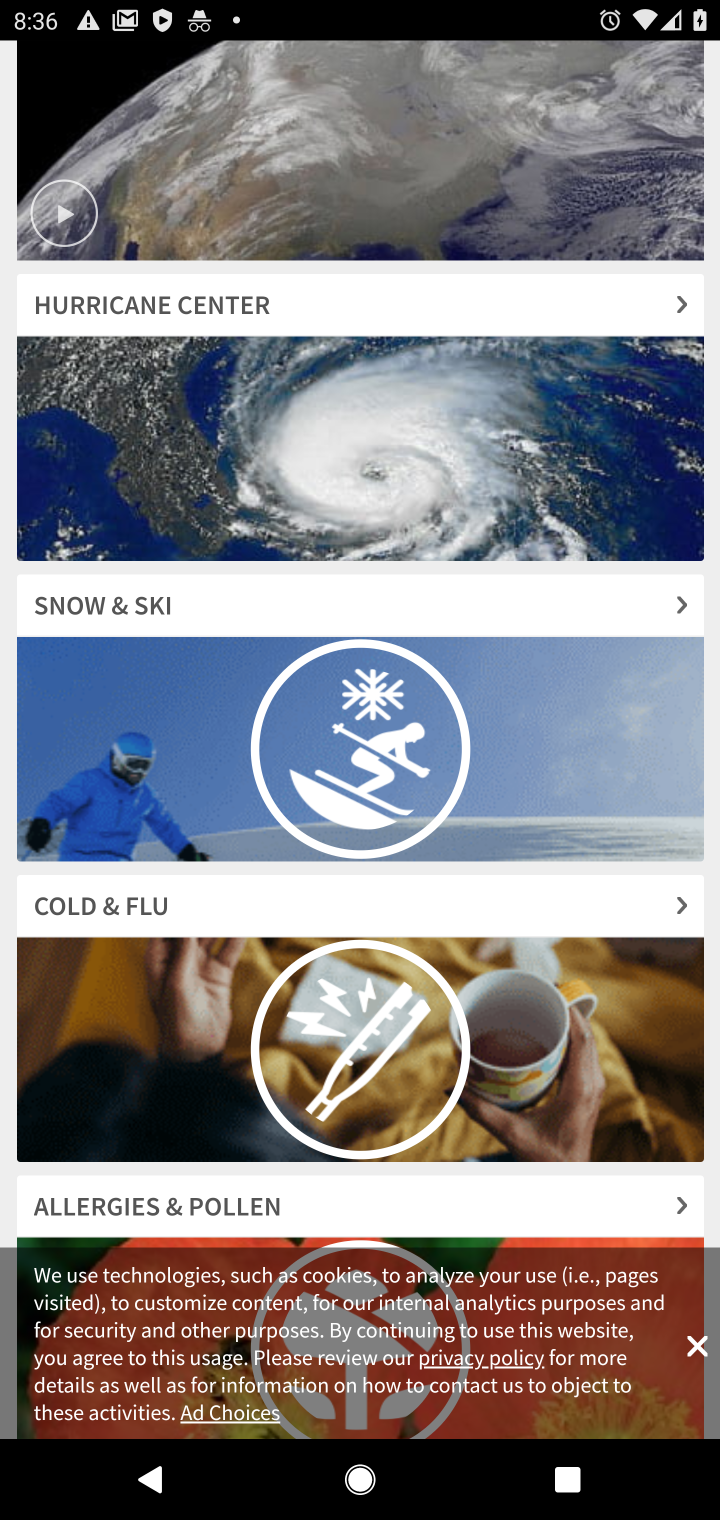
Step 56: task complete